Your task to perform on an android device: show emergency info Image 0: 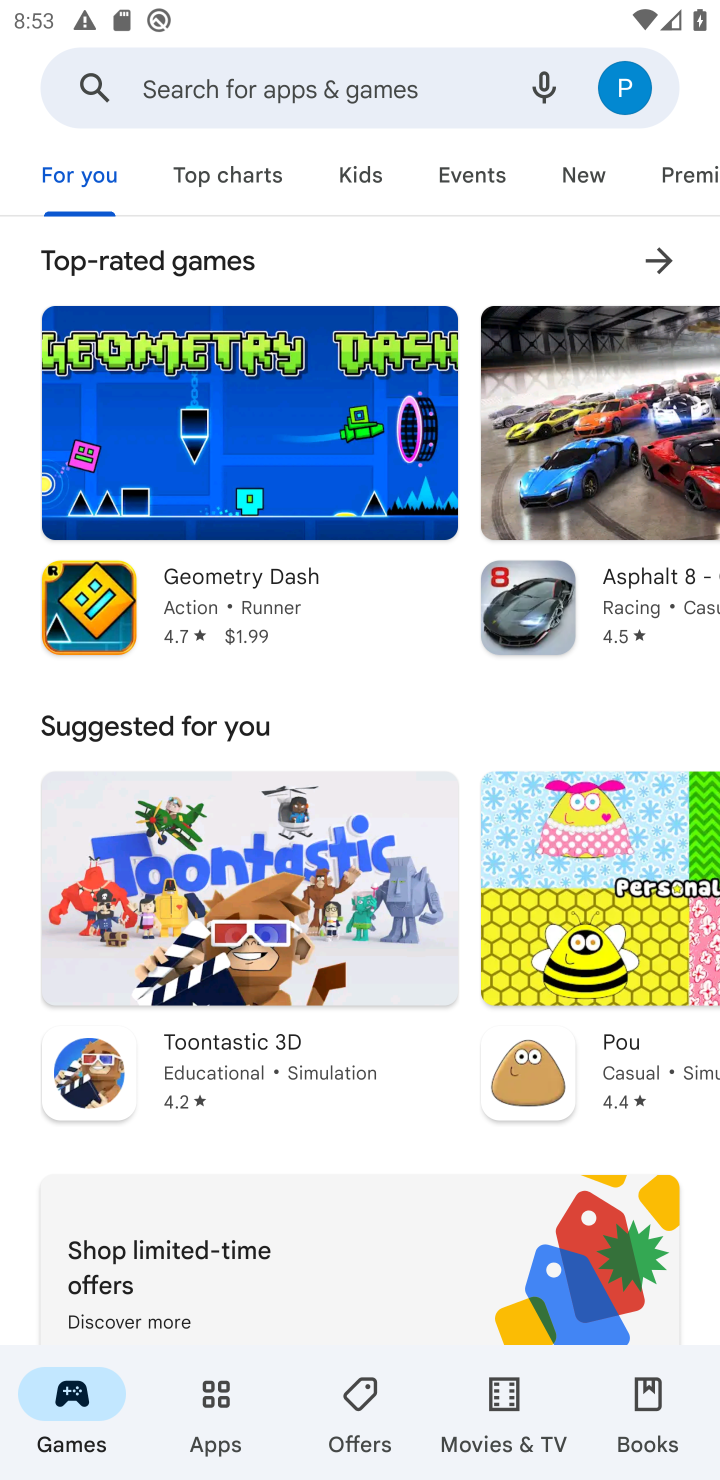
Step 0: press back button
Your task to perform on an android device: show emergency info Image 1: 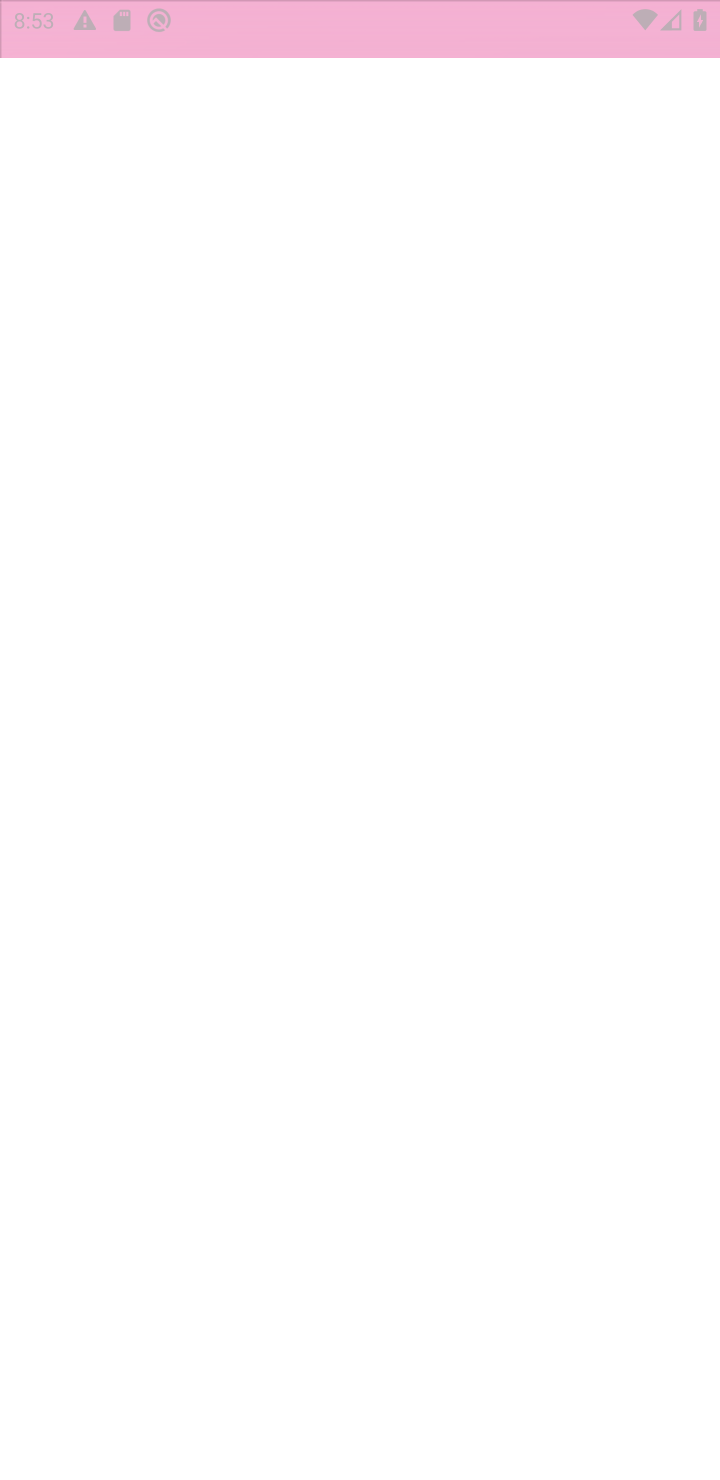
Step 1: press home button
Your task to perform on an android device: show emergency info Image 2: 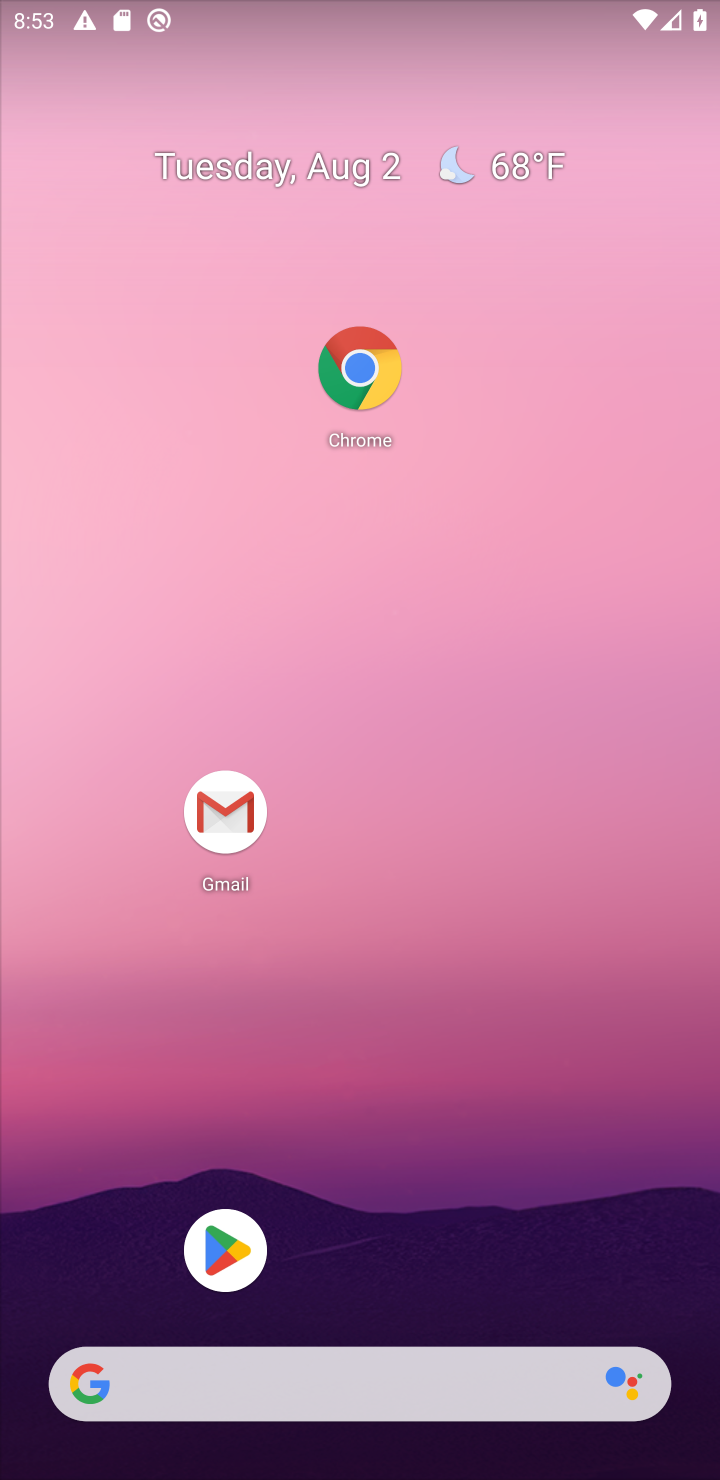
Step 2: drag from (409, 451) to (443, 217)
Your task to perform on an android device: show emergency info Image 3: 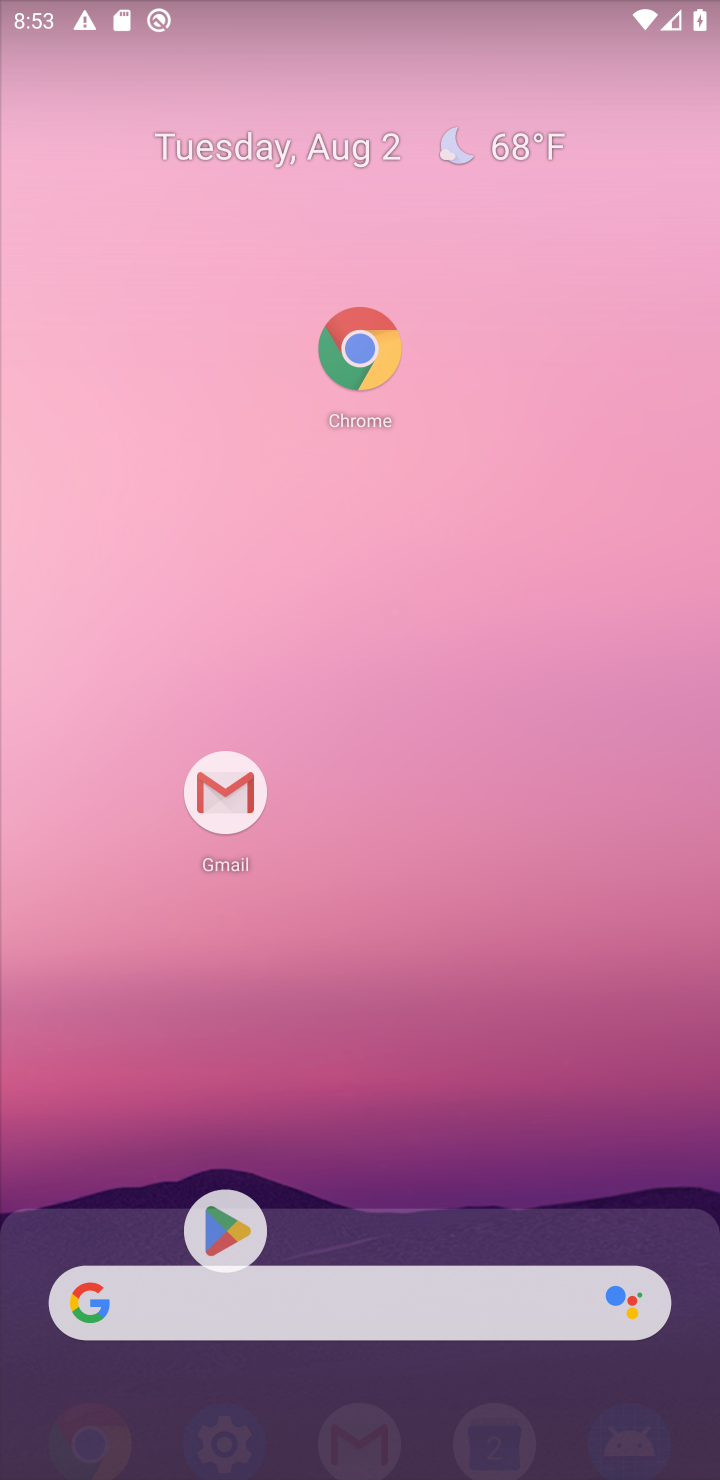
Step 3: click (264, 382)
Your task to perform on an android device: show emergency info Image 4: 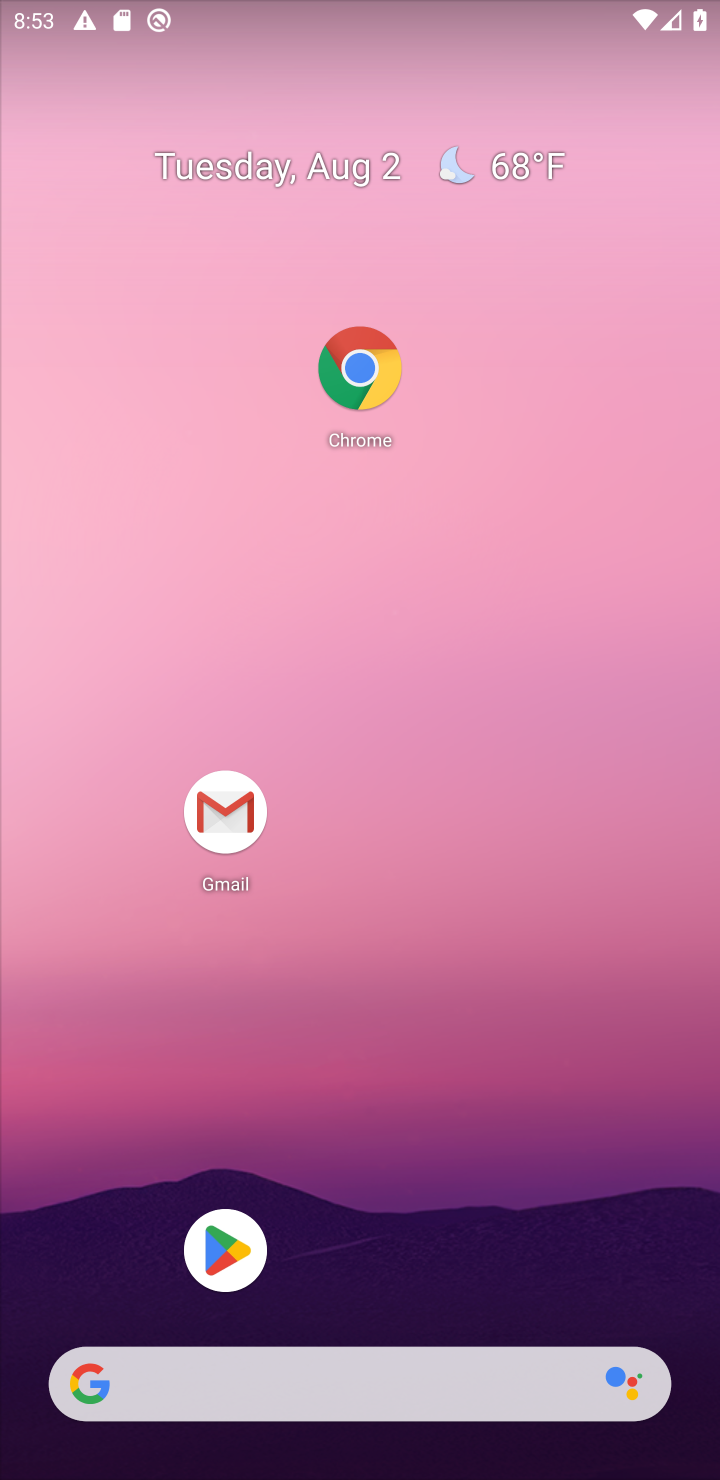
Step 4: drag from (291, 537) to (413, 347)
Your task to perform on an android device: show emergency info Image 5: 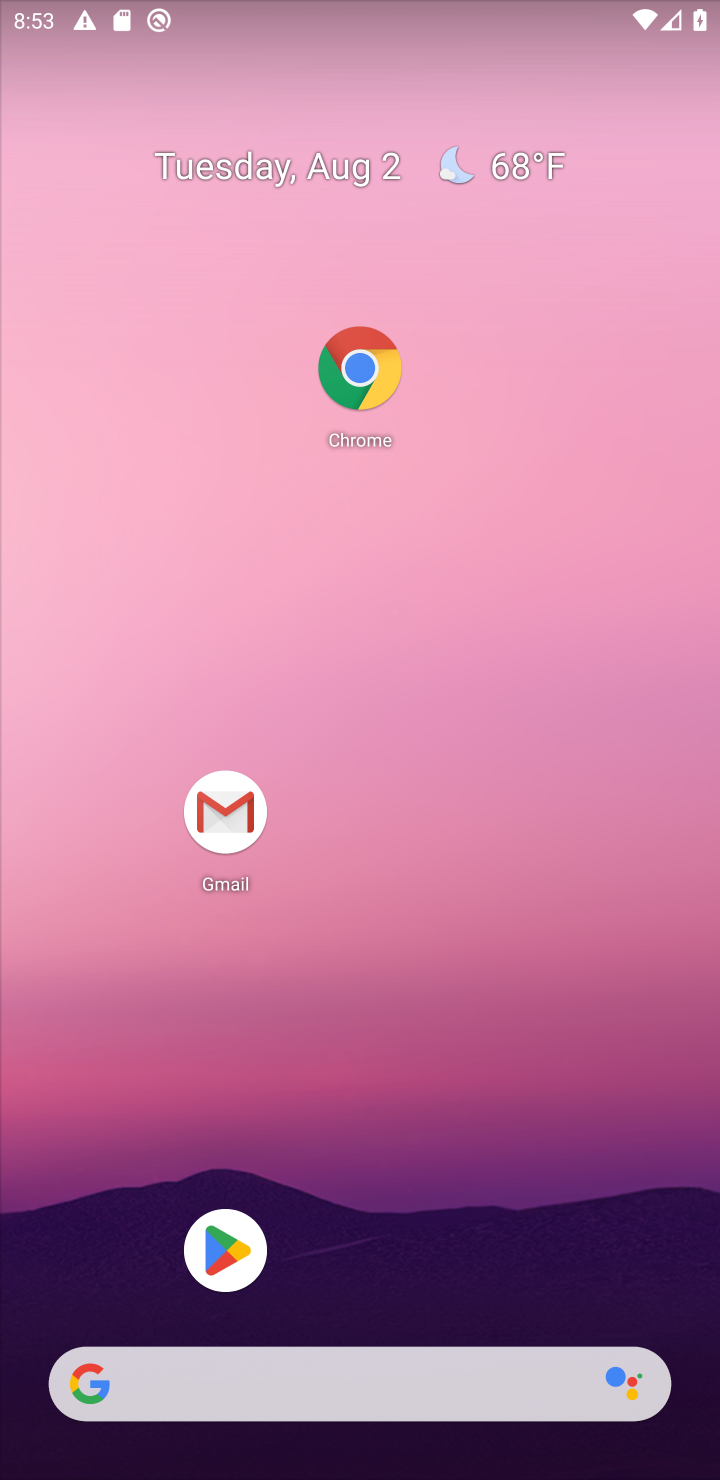
Step 5: click (358, 432)
Your task to perform on an android device: show emergency info Image 6: 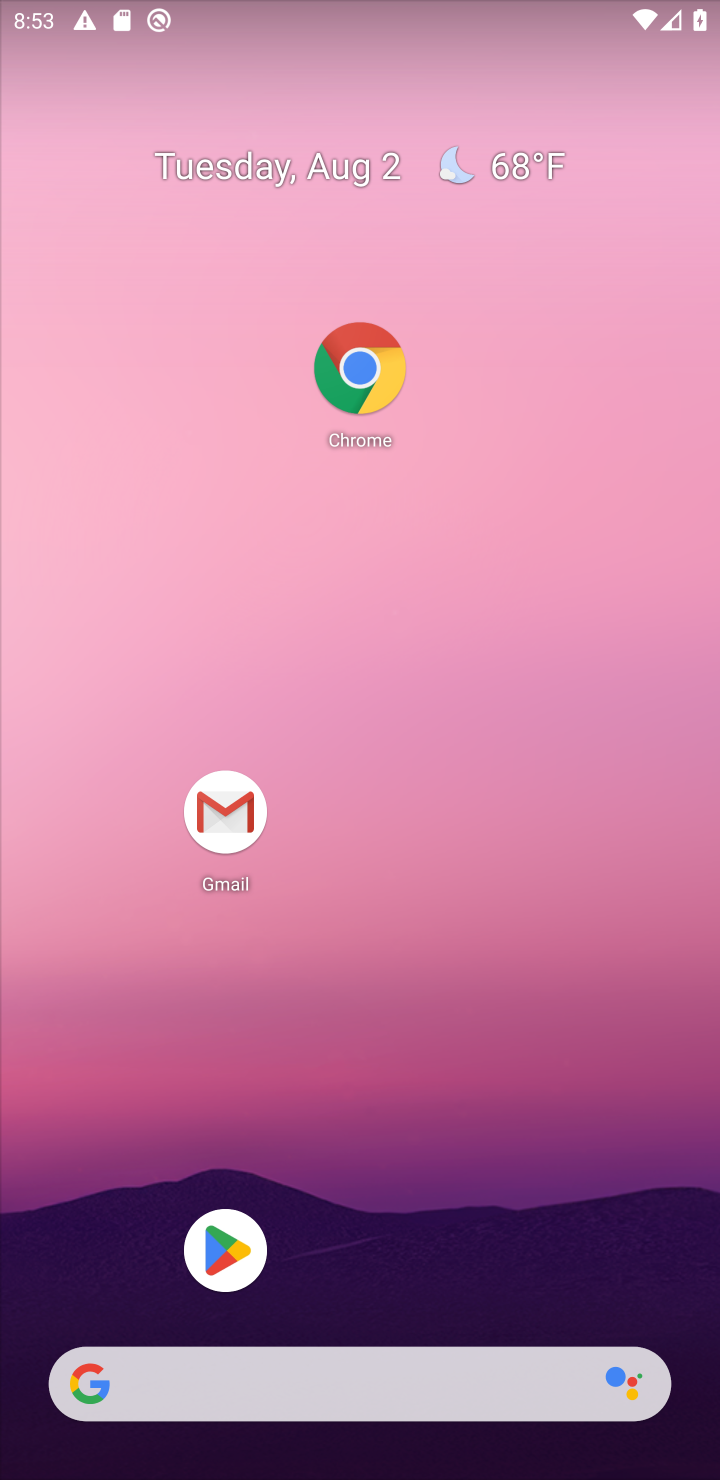
Step 6: drag from (314, 990) to (294, 433)
Your task to perform on an android device: show emergency info Image 7: 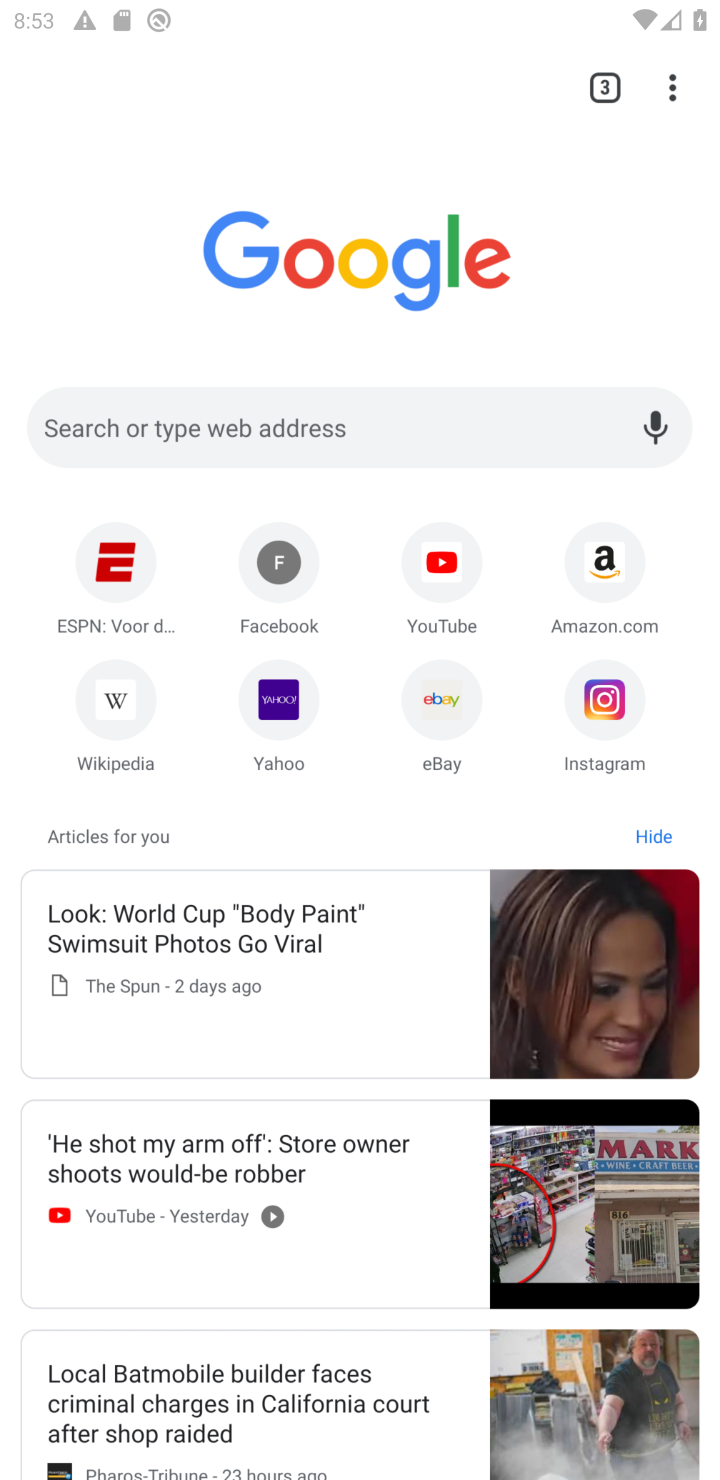
Step 7: click (266, 470)
Your task to perform on an android device: show emergency info Image 8: 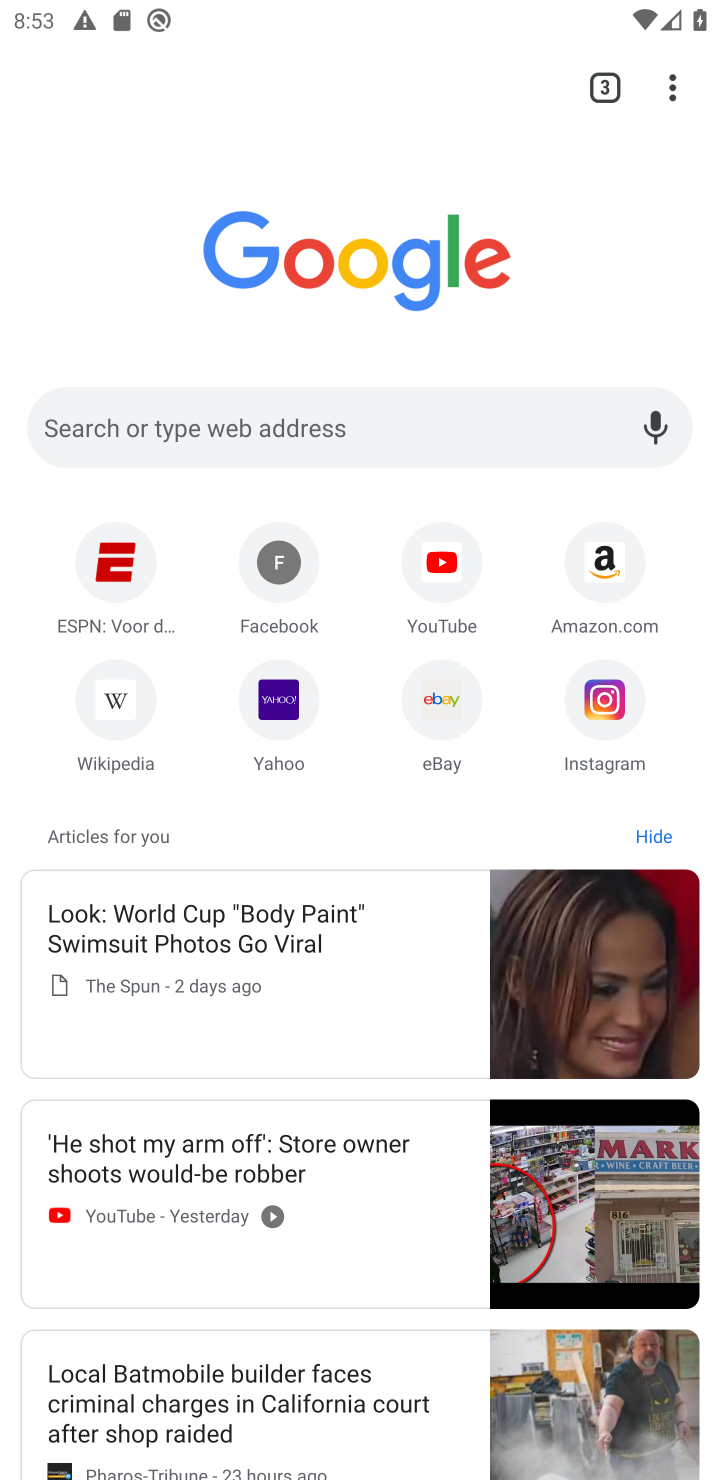
Step 8: press back button
Your task to perform on an android device: show emergency info Image 9: 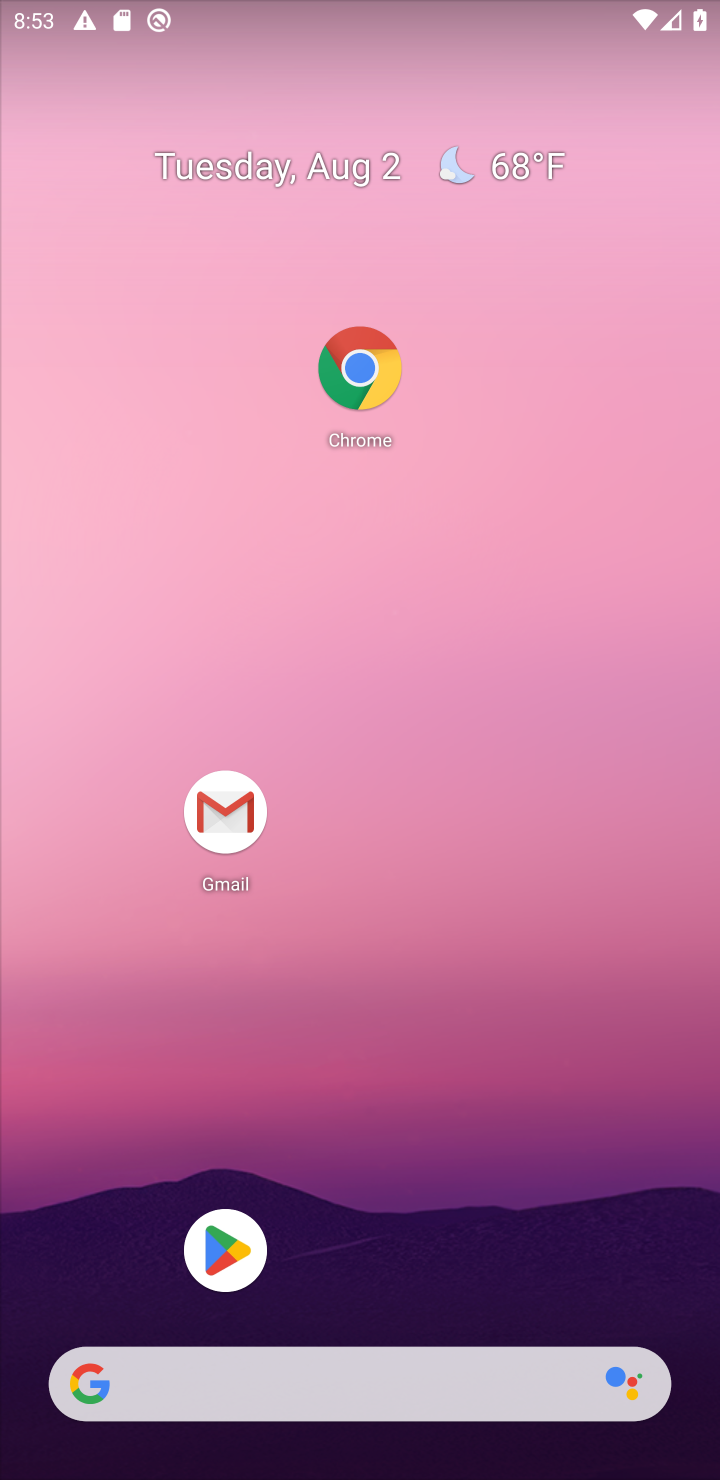
Step 9: drag from (233, 372) to (435, 291)
Your task to perform on an android device: show emergency info Image 10: 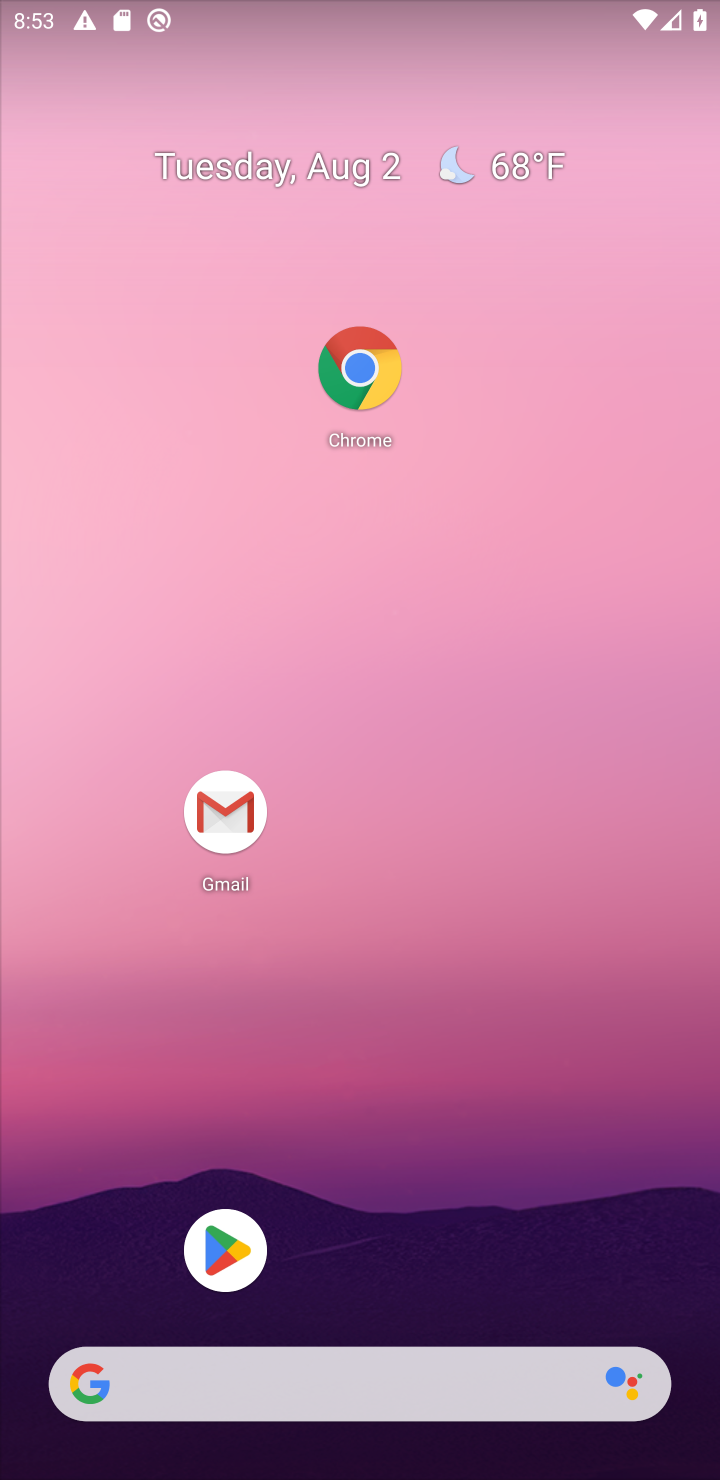
Step 10: click (366, 319)
Your task to perform on an android device: show emergency info Image 11: 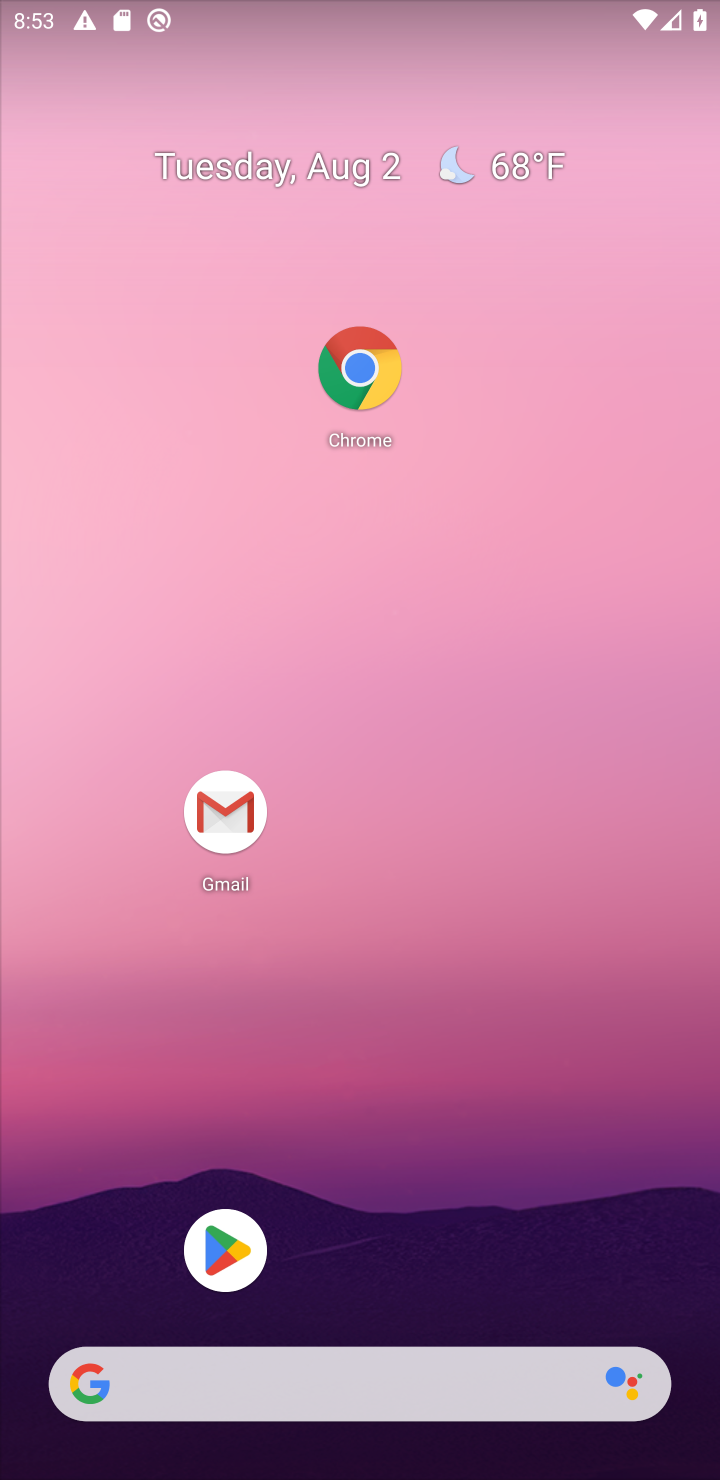
Step 11: click (336, 454)
Your task to perform on an android device: show emergency info Image 12: 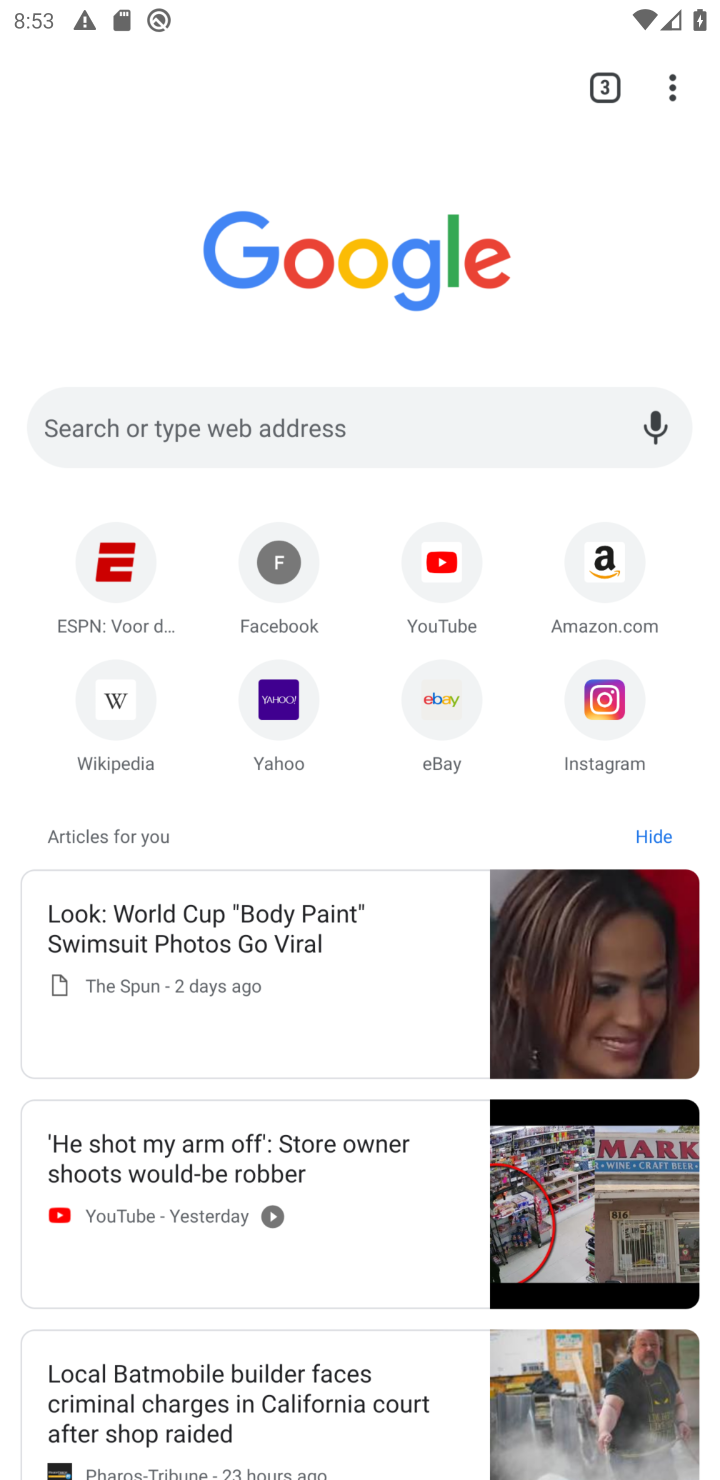
Step 12: click (307, 481)
Your task to perform on an android device: show emergency info Image 13: 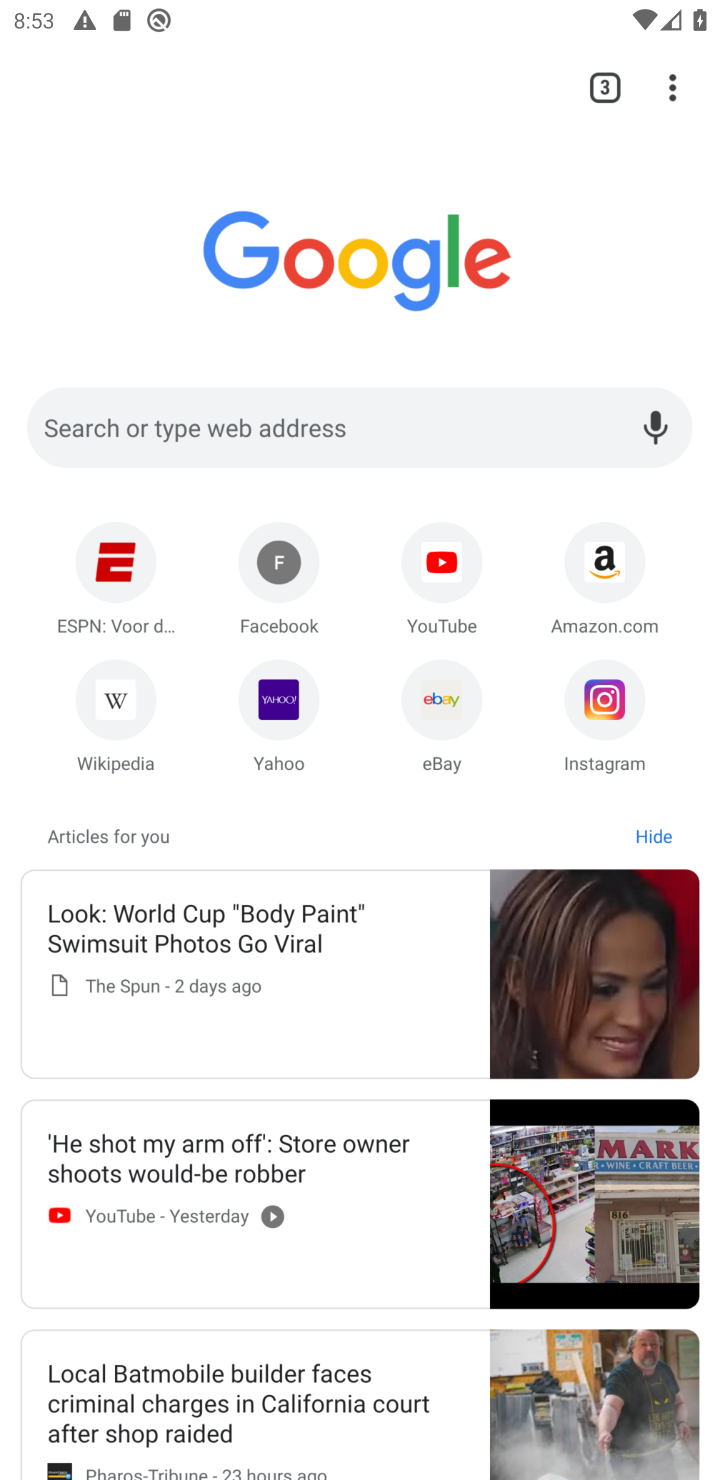
Step 13: drag from (340, 673) to (348, 433)
Your task to perform on an android device: show emergency info Image 14: 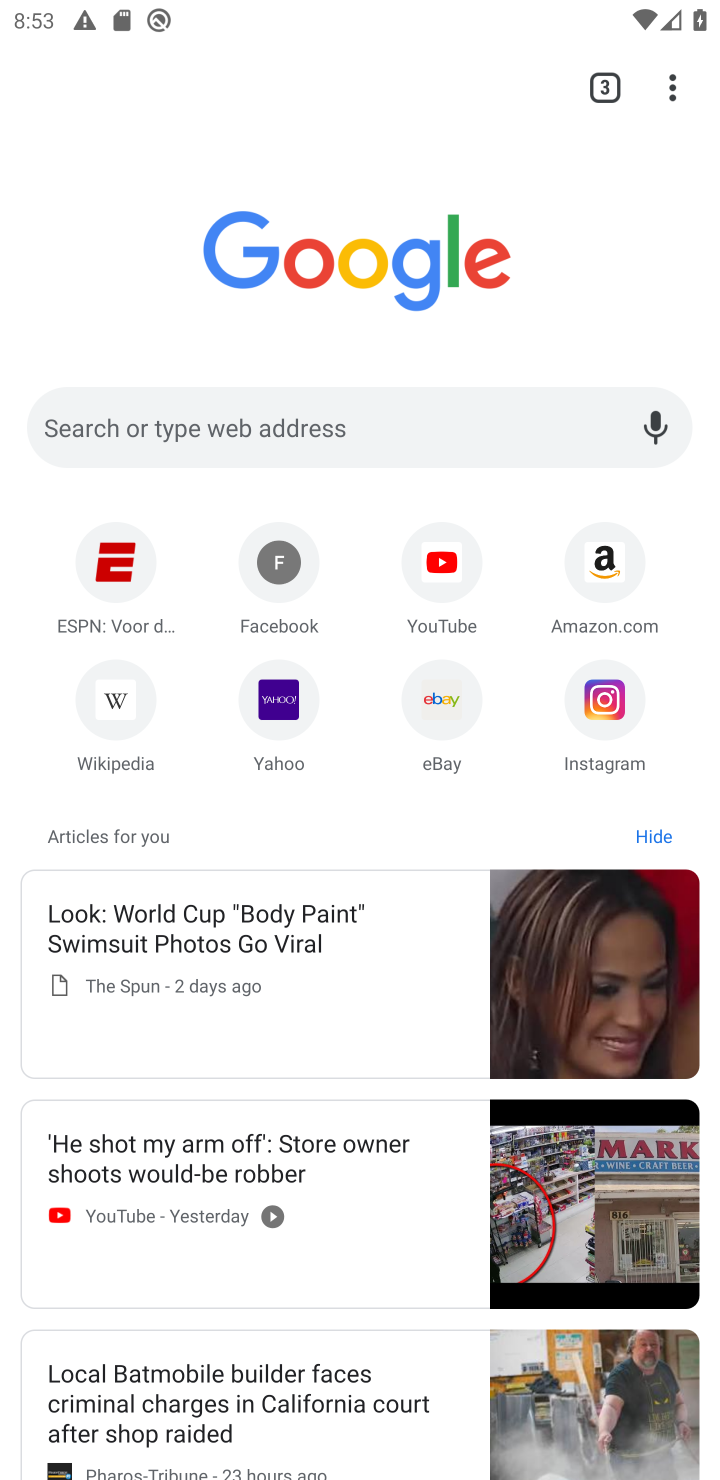
Step 14: press back button
Your task to perform on an android device: show emergency info Image 15: 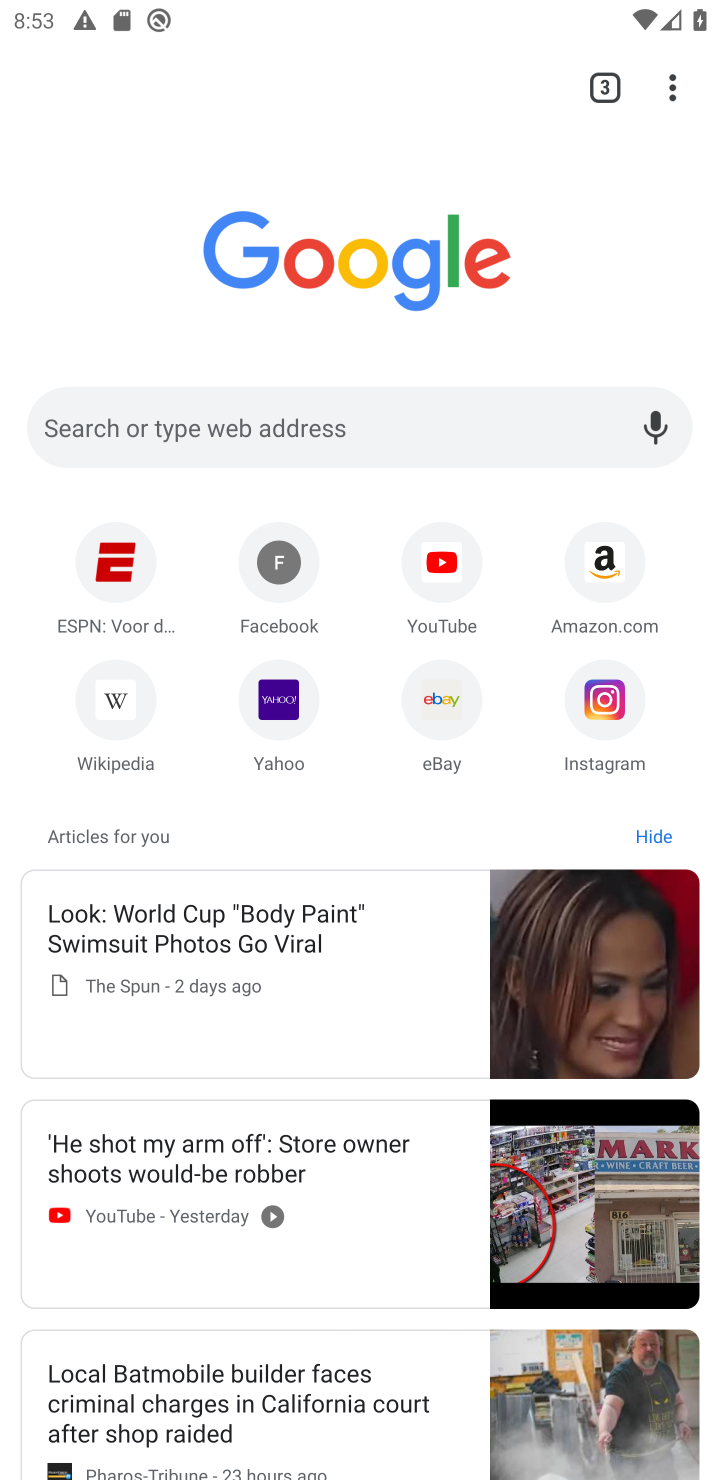
Step 15: press home button
Your task to perform on an android device: show emergency info Image 16: 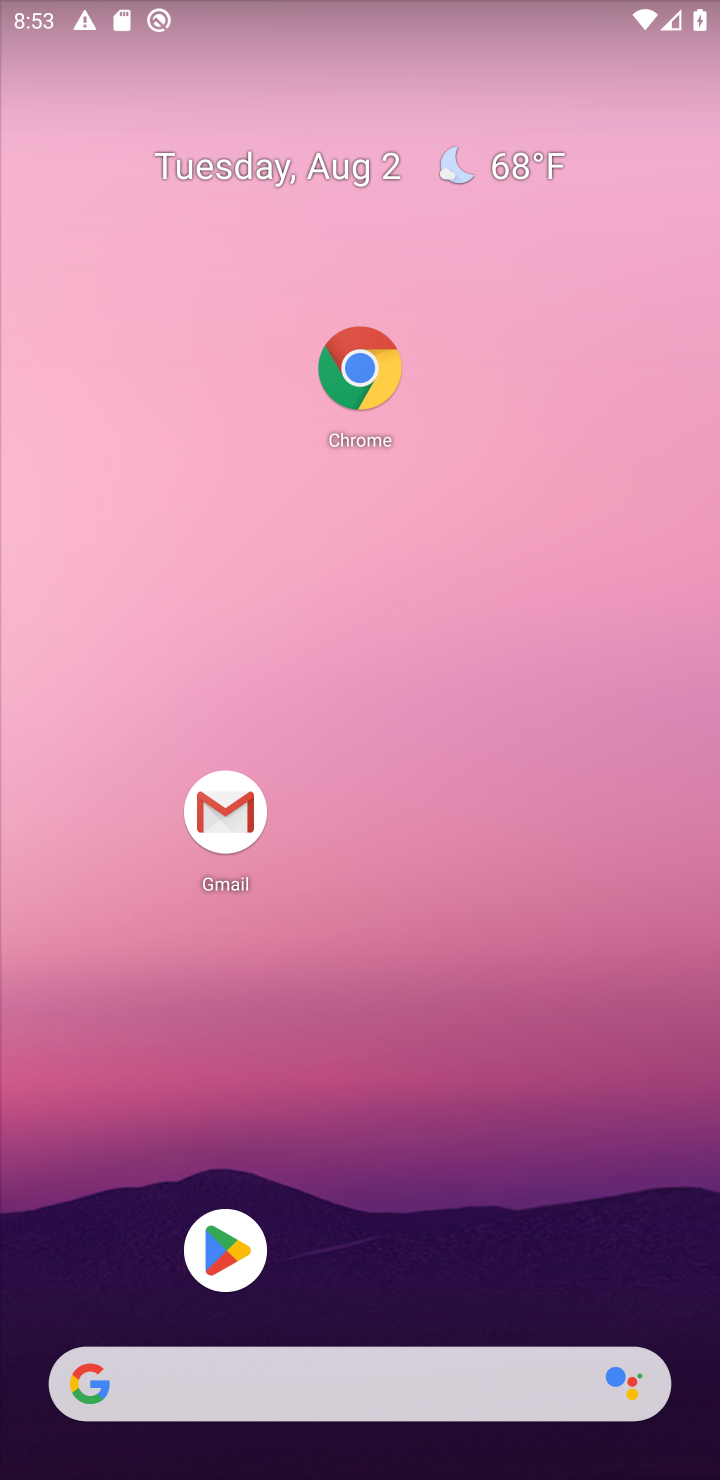
Step 16: press back button
Your task to perform on an android device: show emergency info Image 17: 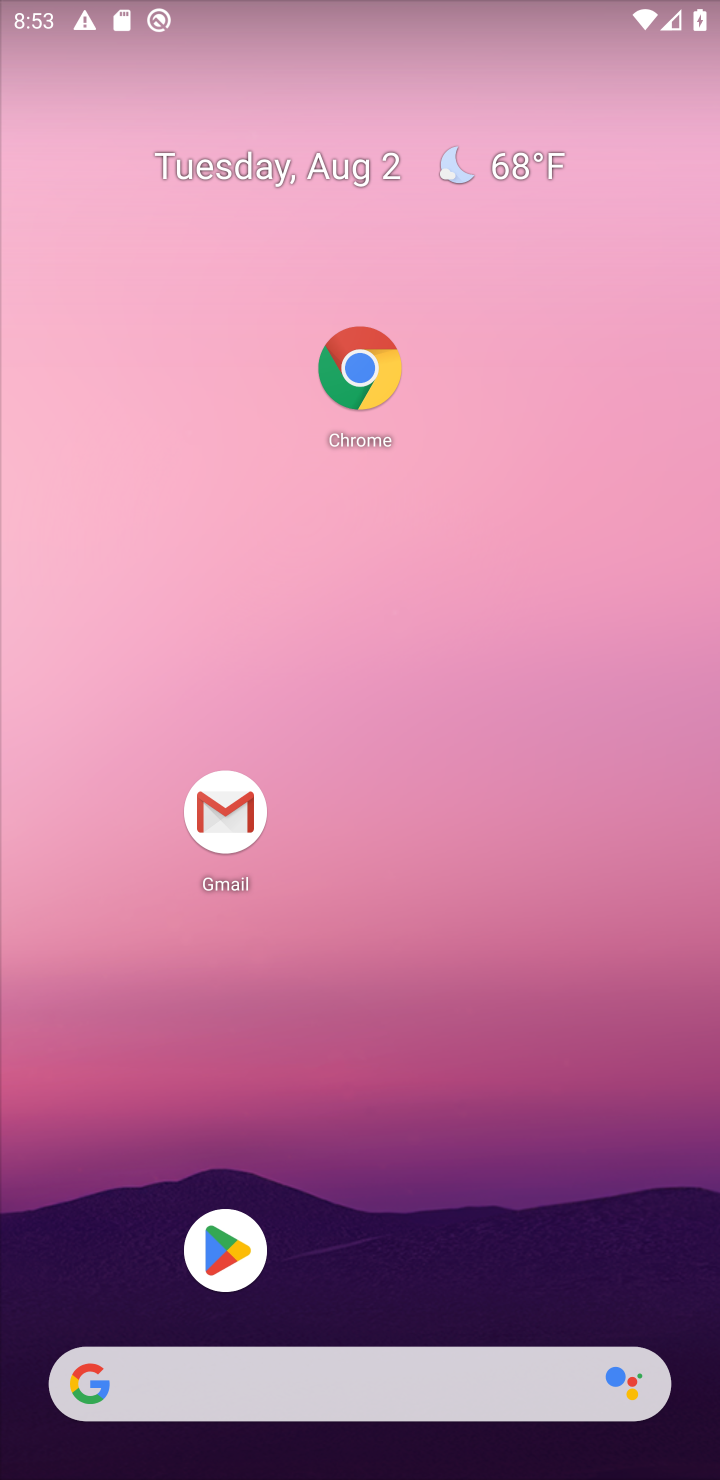
Step 17: drag from (386, 476) to (411, 137)
Your task to perform on an android device: show emergency info Image 18: 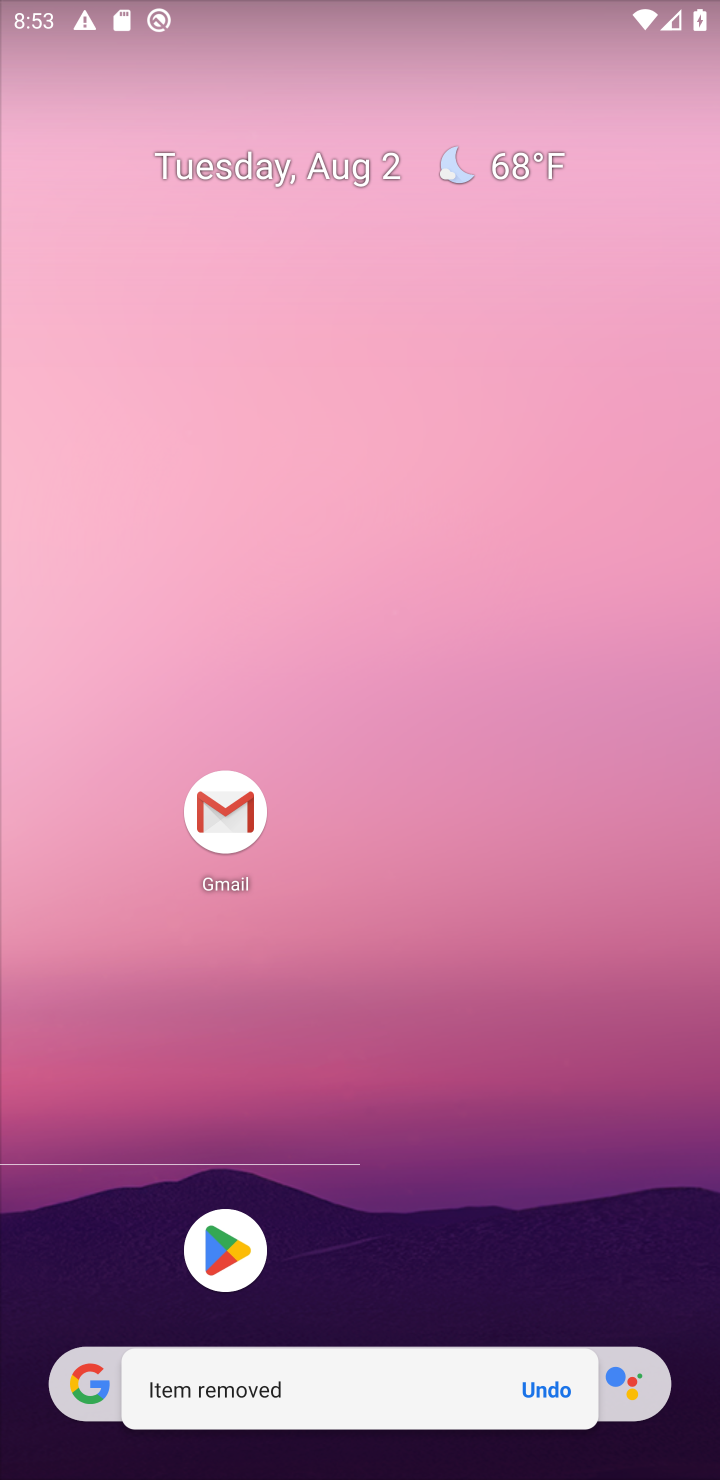
Step 18: drag from (483, 482) to (473, 193)
Your task to perform on an android device: show emergency info Image 19: 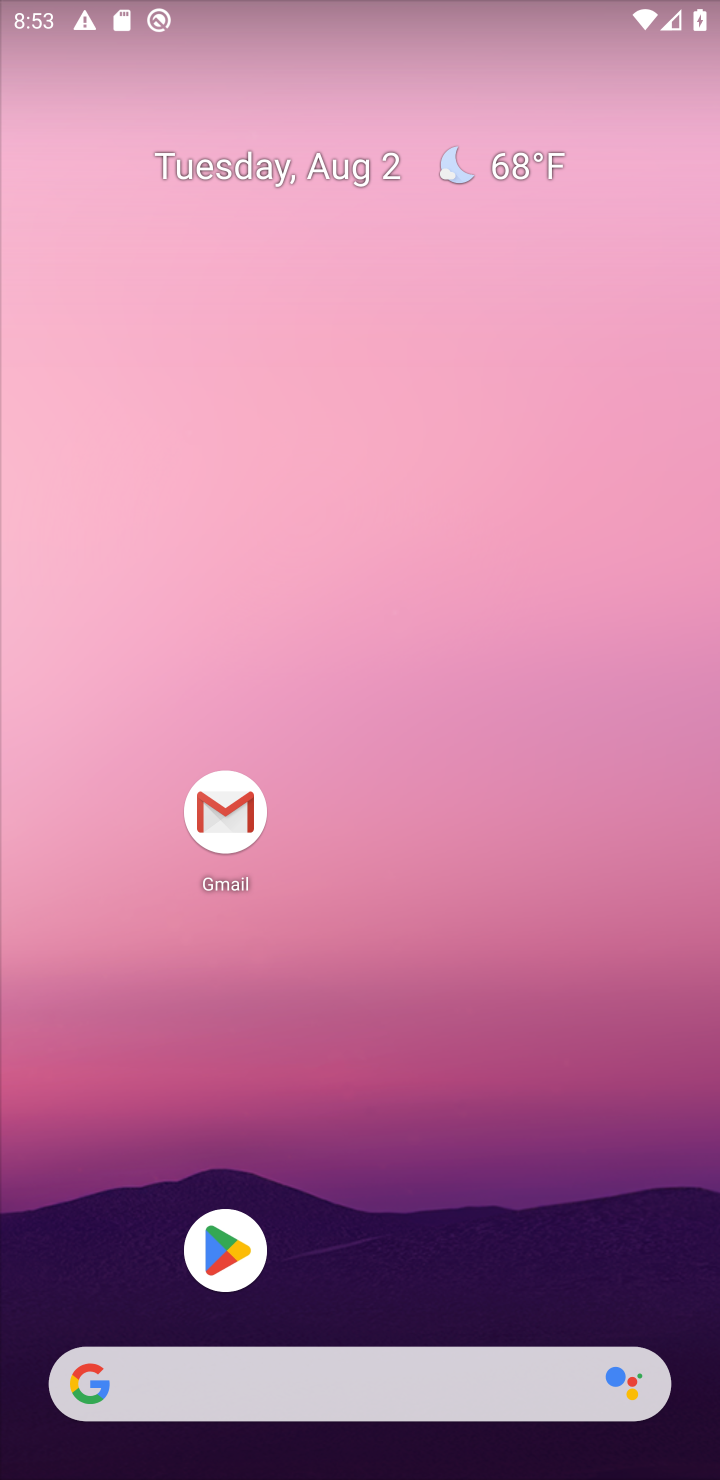
Step 19: drag from (342, 1009) to (250, 290)
Your task to perform on an android device: show emergency info Image 20: 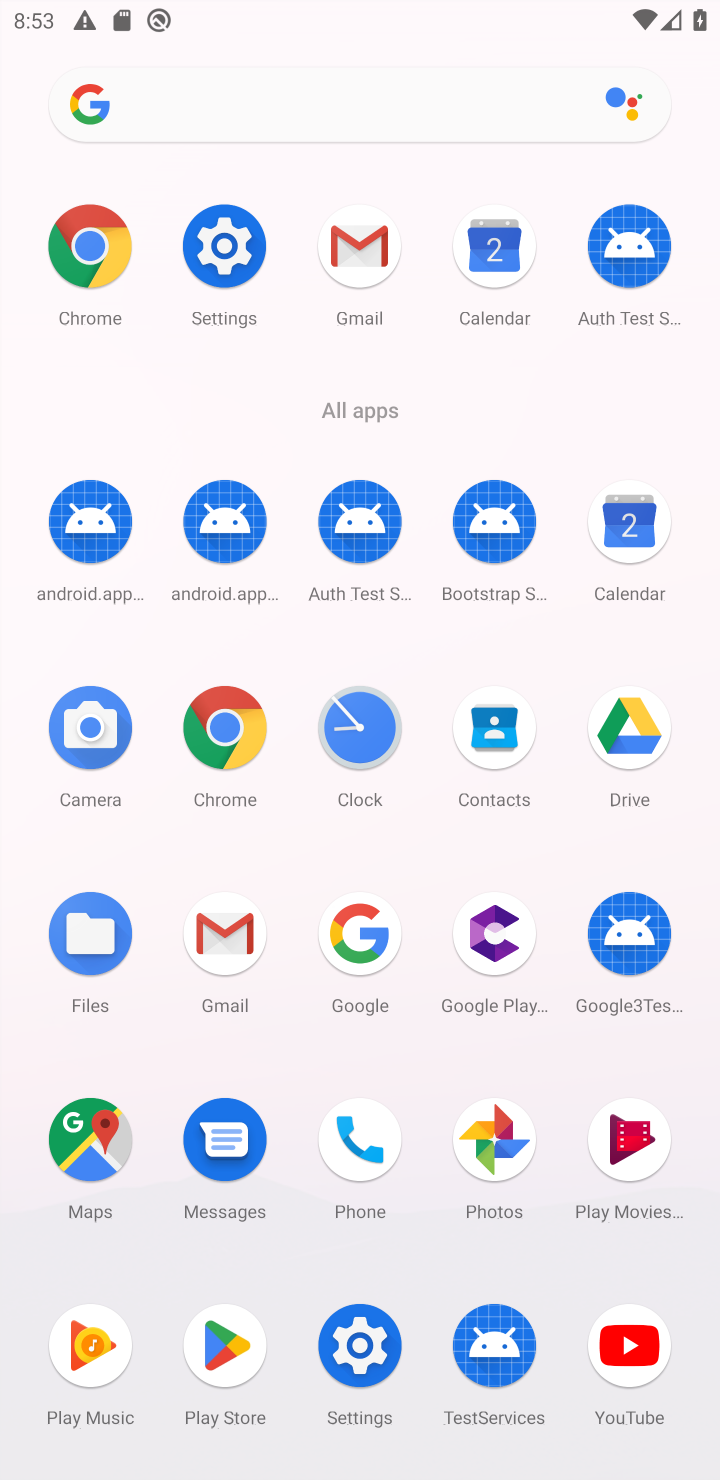
Step 20: click (231, 253)
Your task to perform on an android device: show emergency info Image 21: 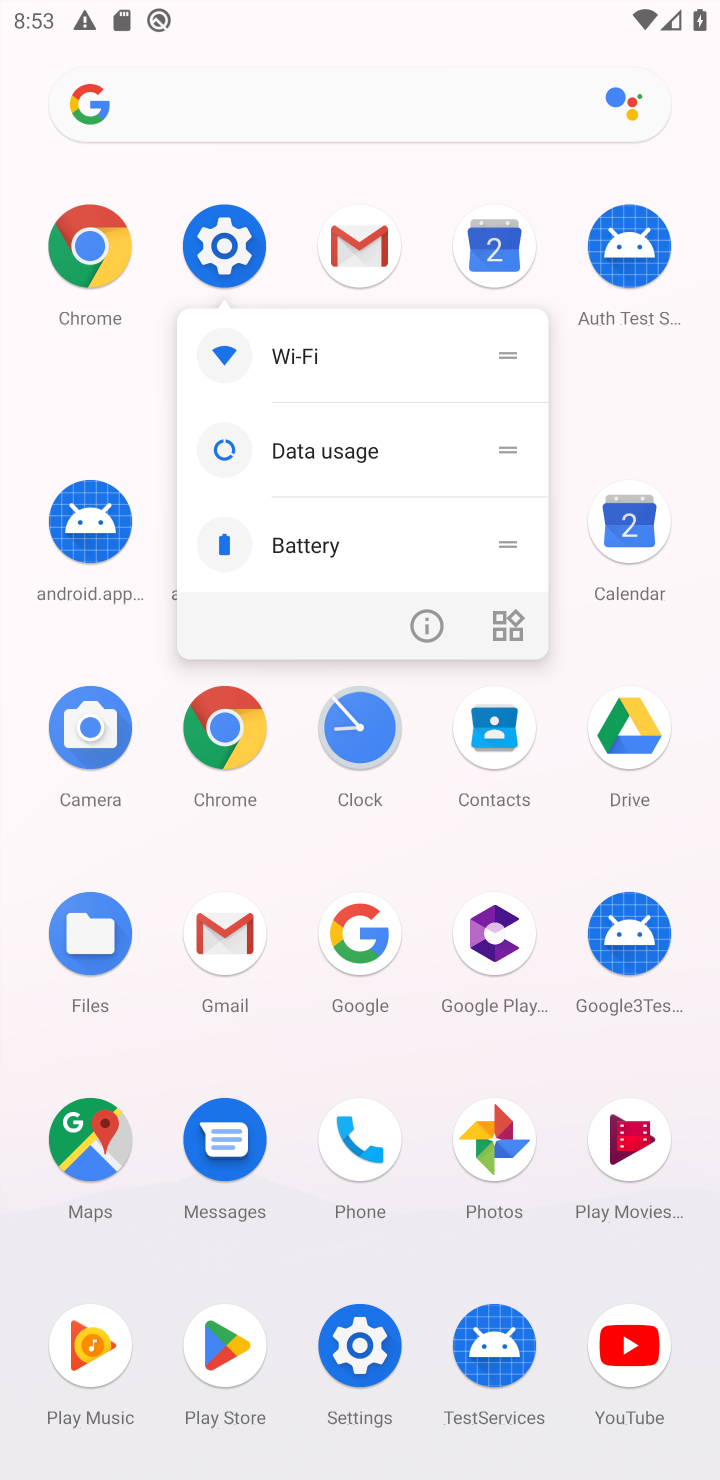
Step 21: click (229, 257)
Your task to perform on an android device: show emergency info Image 22: 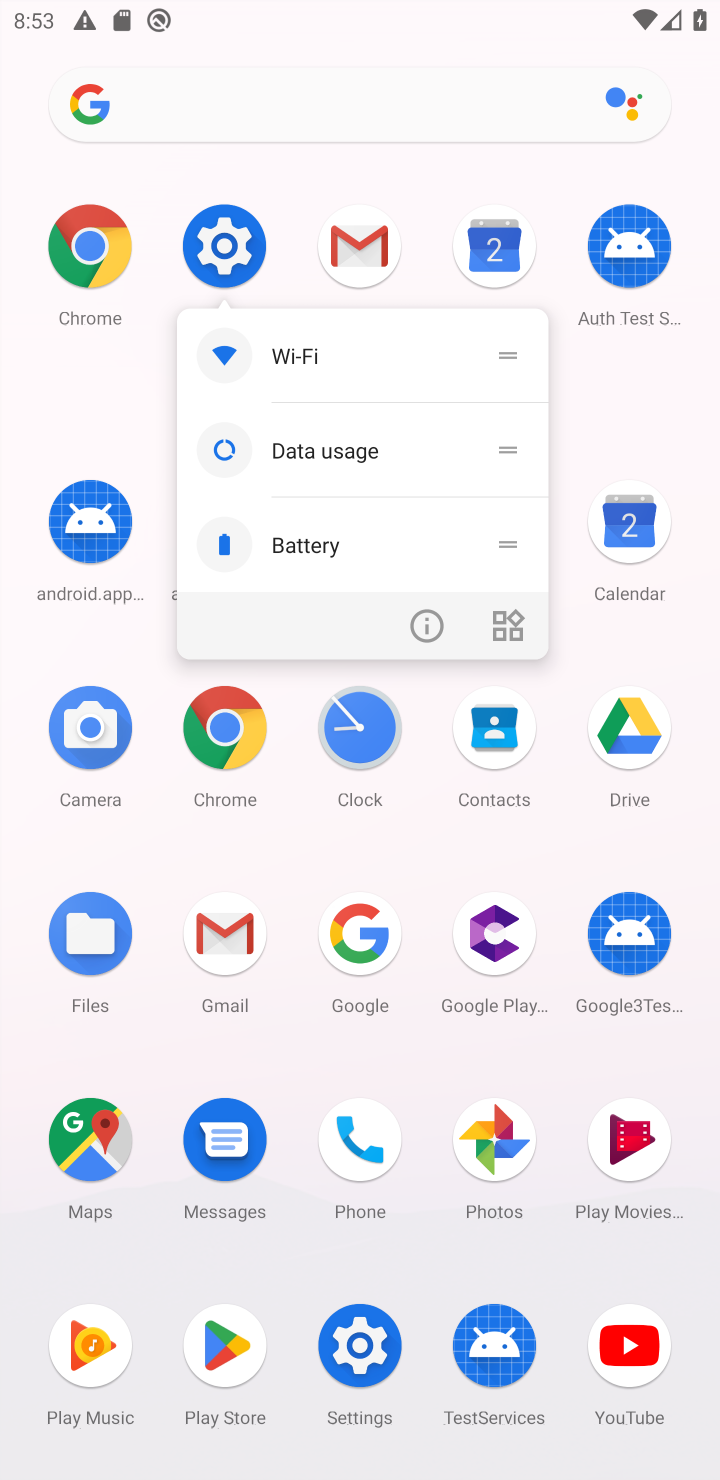
Step 22: click (229, 257)
Your task to perform on an android device: show emergency info Image 23: 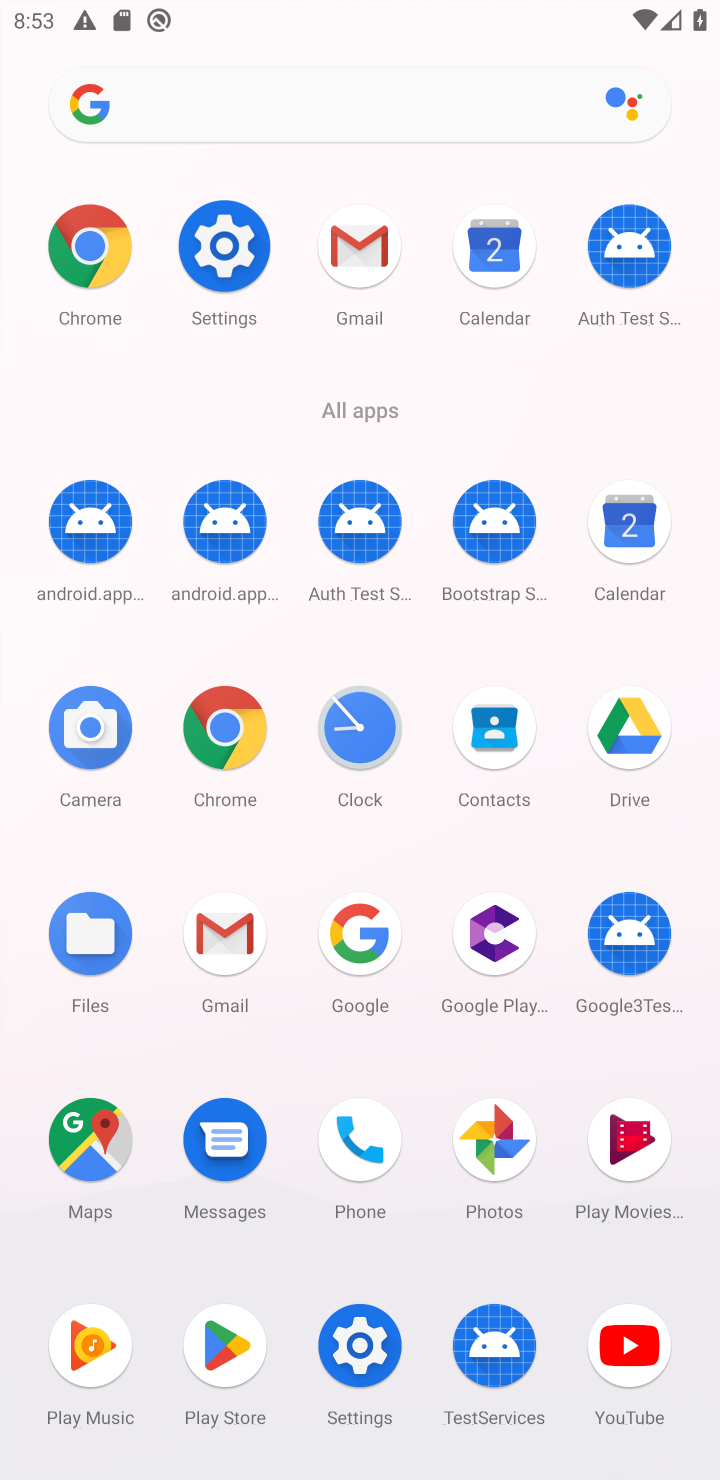
Step 23: click (229, 257)
Your task to perform on an android device: show emergency info Image 24: 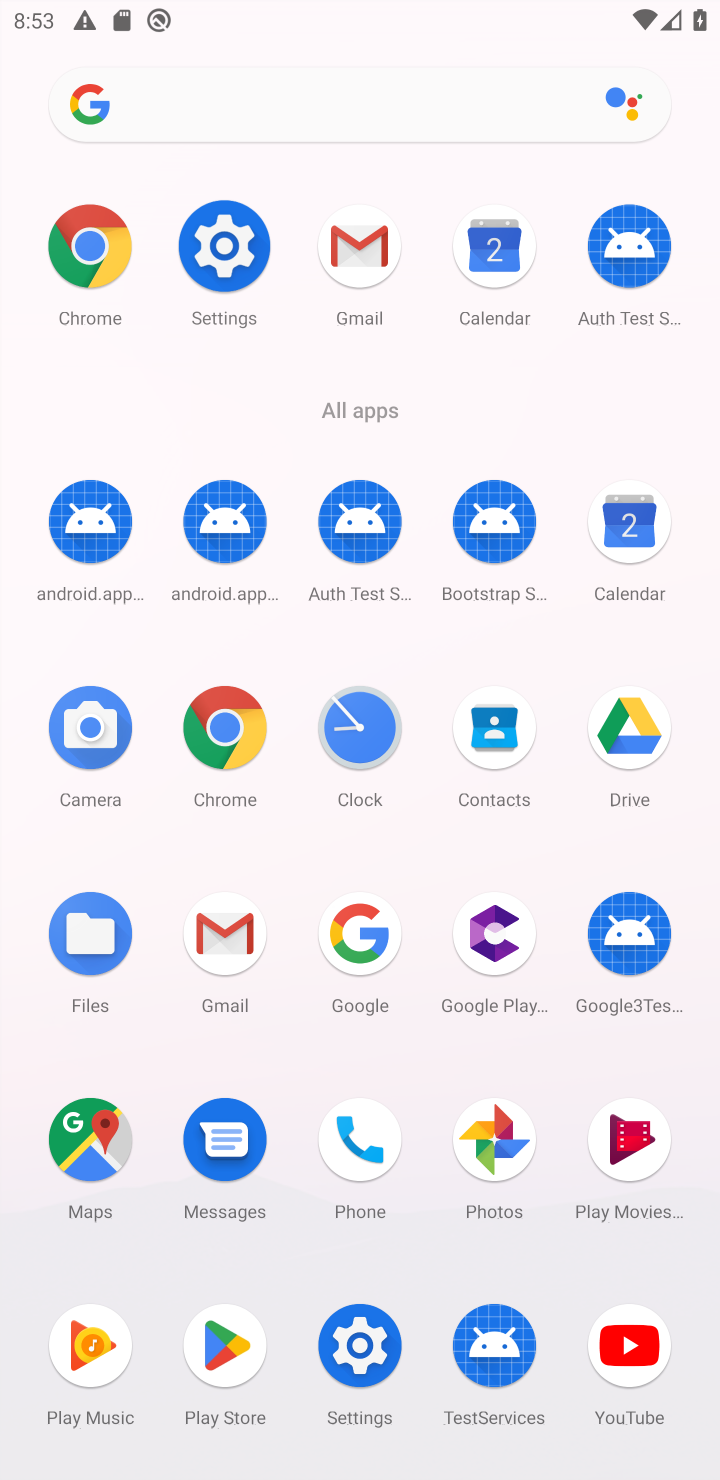
Step 24: click (225, 264)
Your task to perform on an android device: show emergency info Image 25: 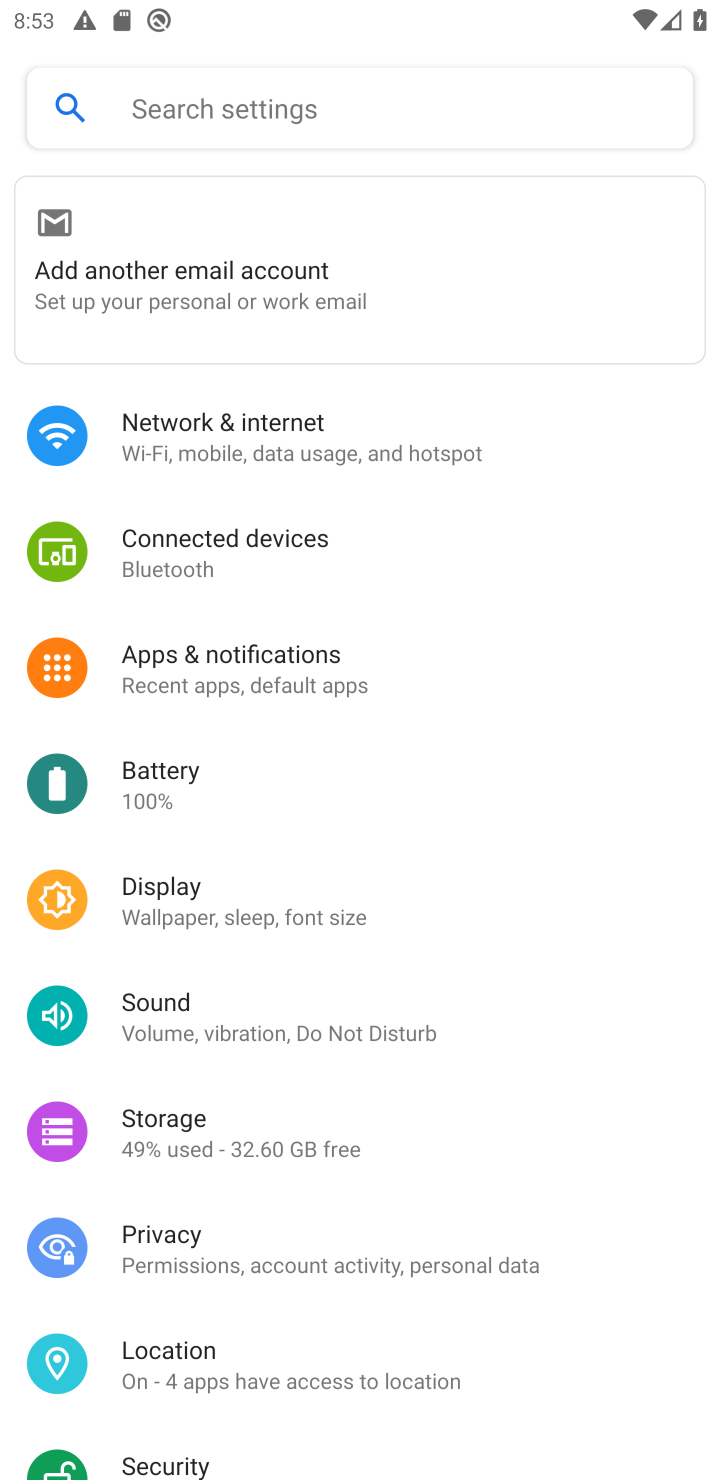
Step 25: click (225, 264)
Your task to perform on an android device: show emergency info Image 26: 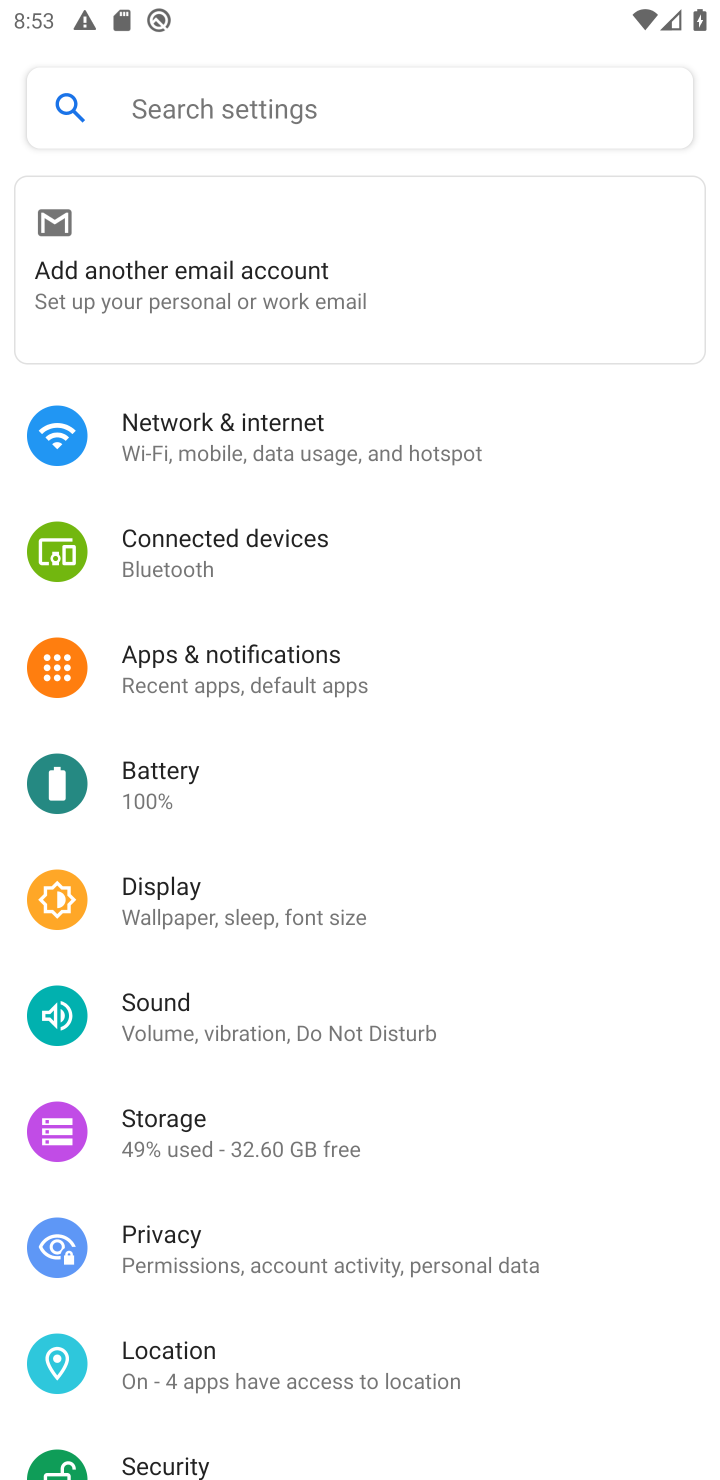
Step 26: drag from (302, 598) to (295, 531)
Your task to perform on an android device: show emergency info Image 27: 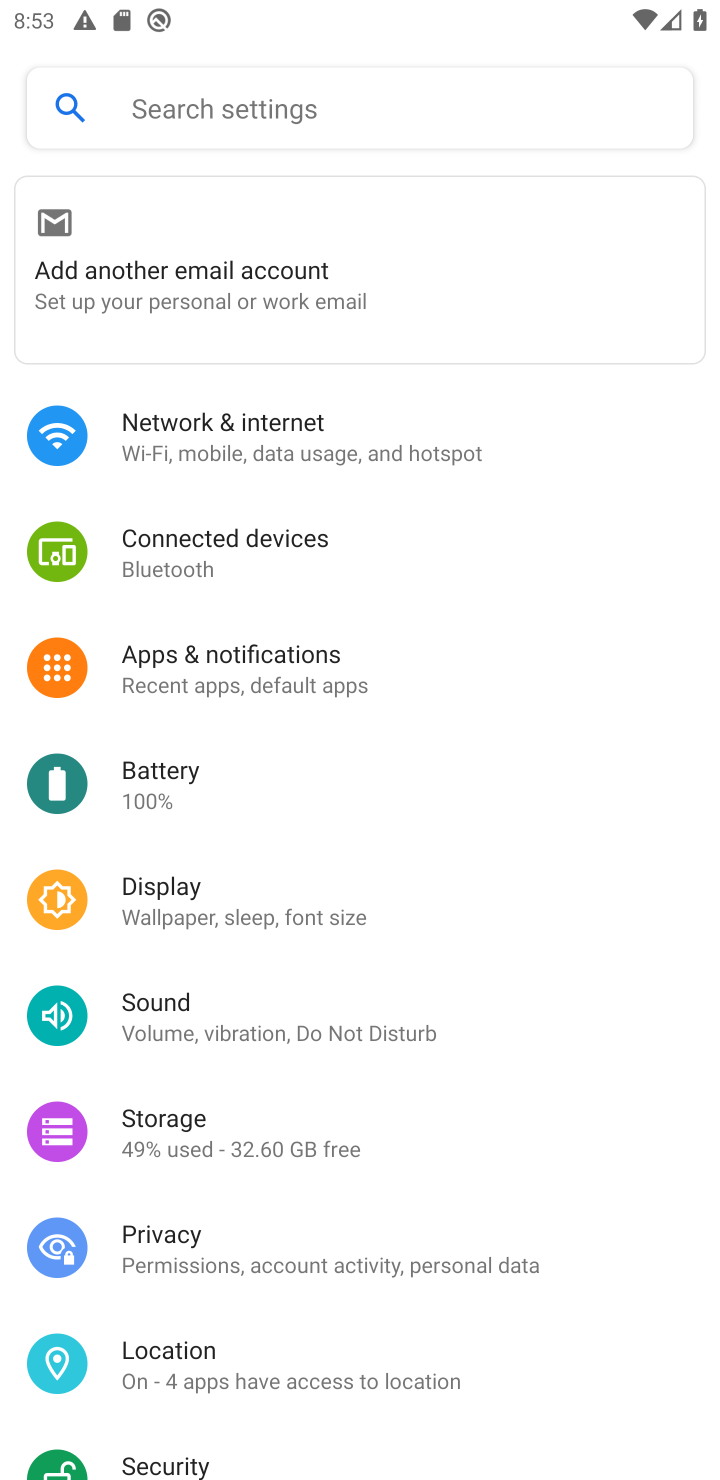
Step 27: drag from (225, 948) to (225, 485)
Your task to perform on an android device: show emergency info Image 28: 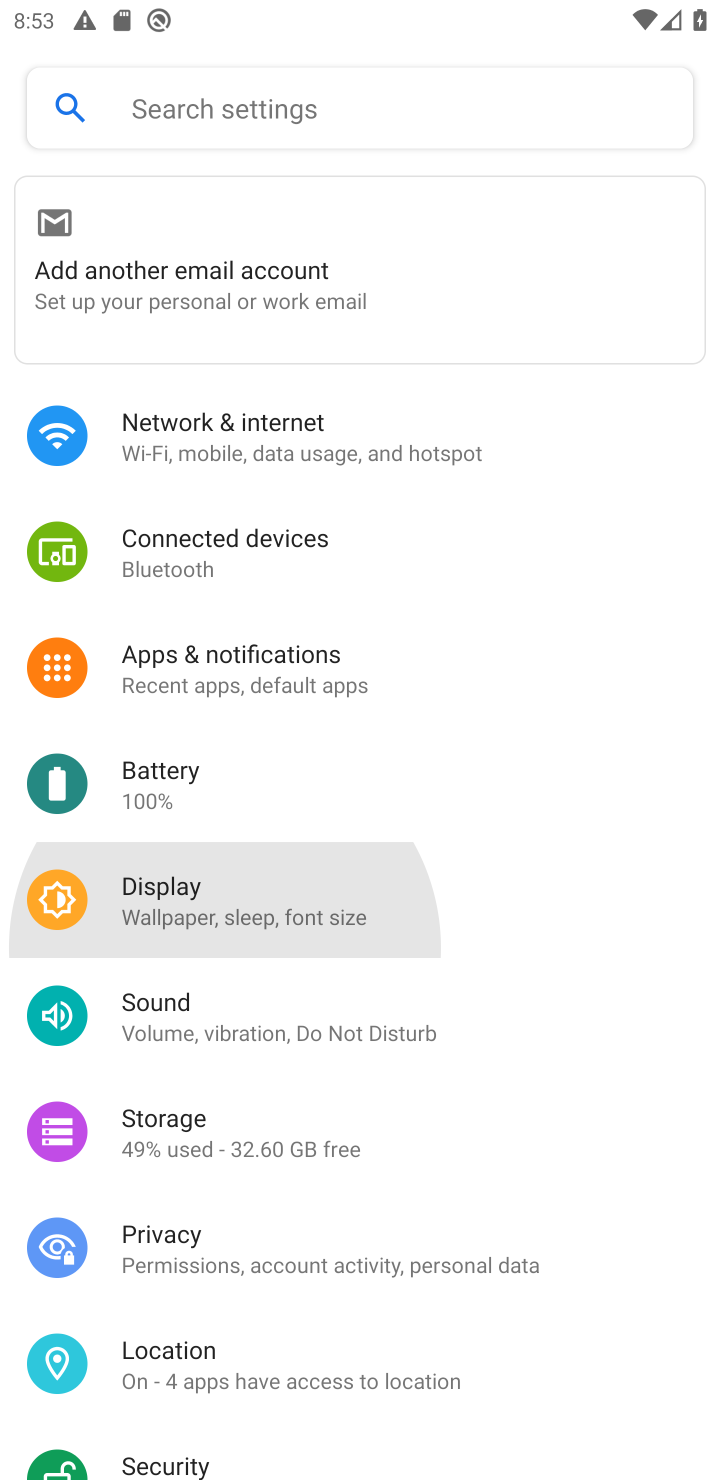
Step 28: drag from (315, 668) to (370, 354)
Your task to perform on an android device: show emergency info Image 29: 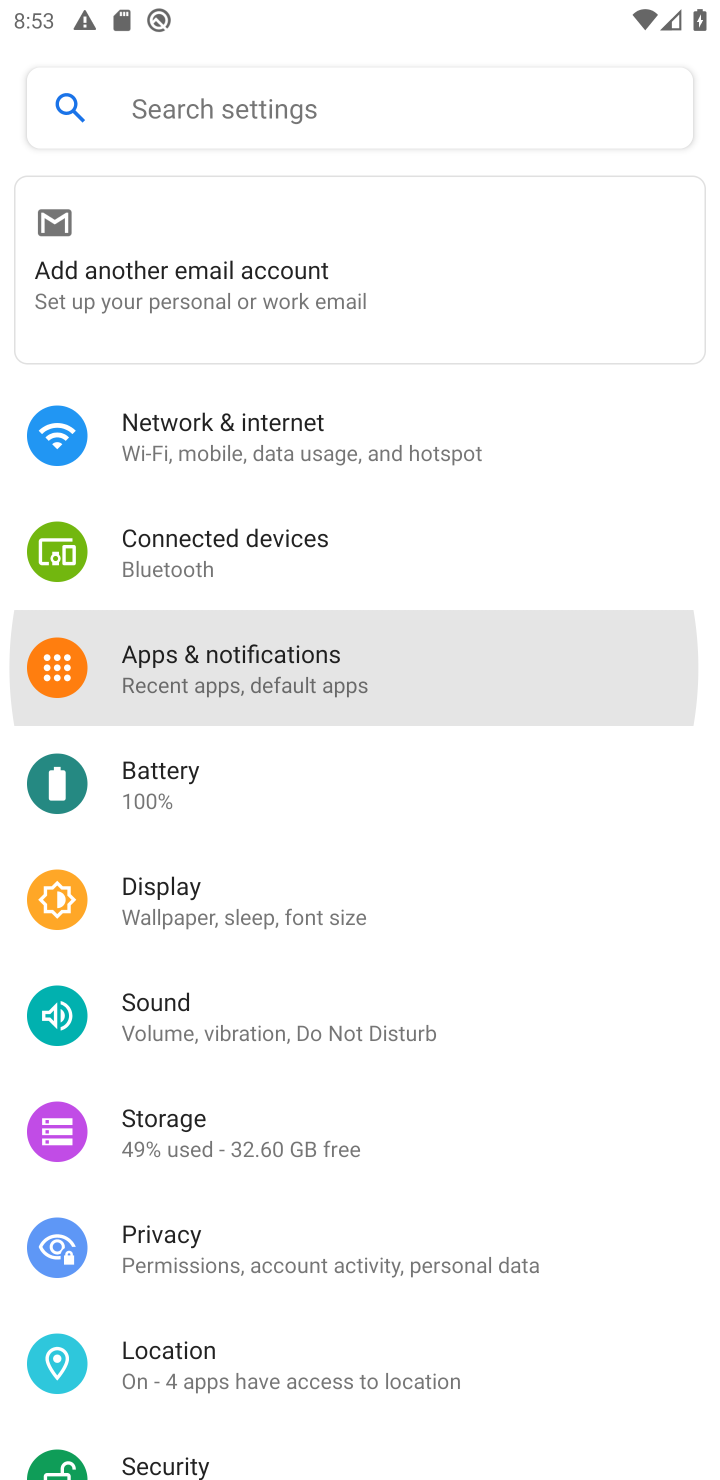
Step 29: click (173, 559)
Your task to perform on an android device: show emergency info Image 30: 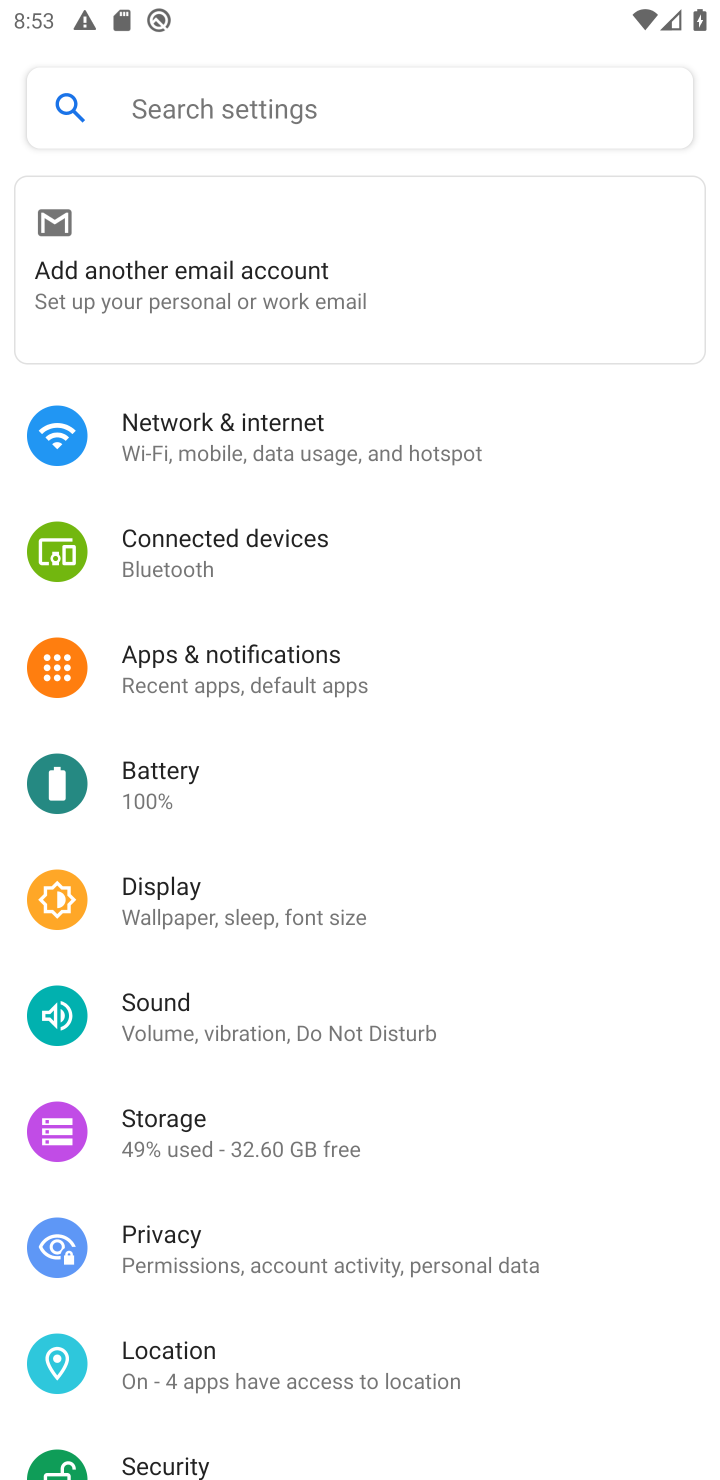
Step 30: drag from (141, 1096) to (241, 577)
Your task to perform on an android device: show emergency info Image 31: 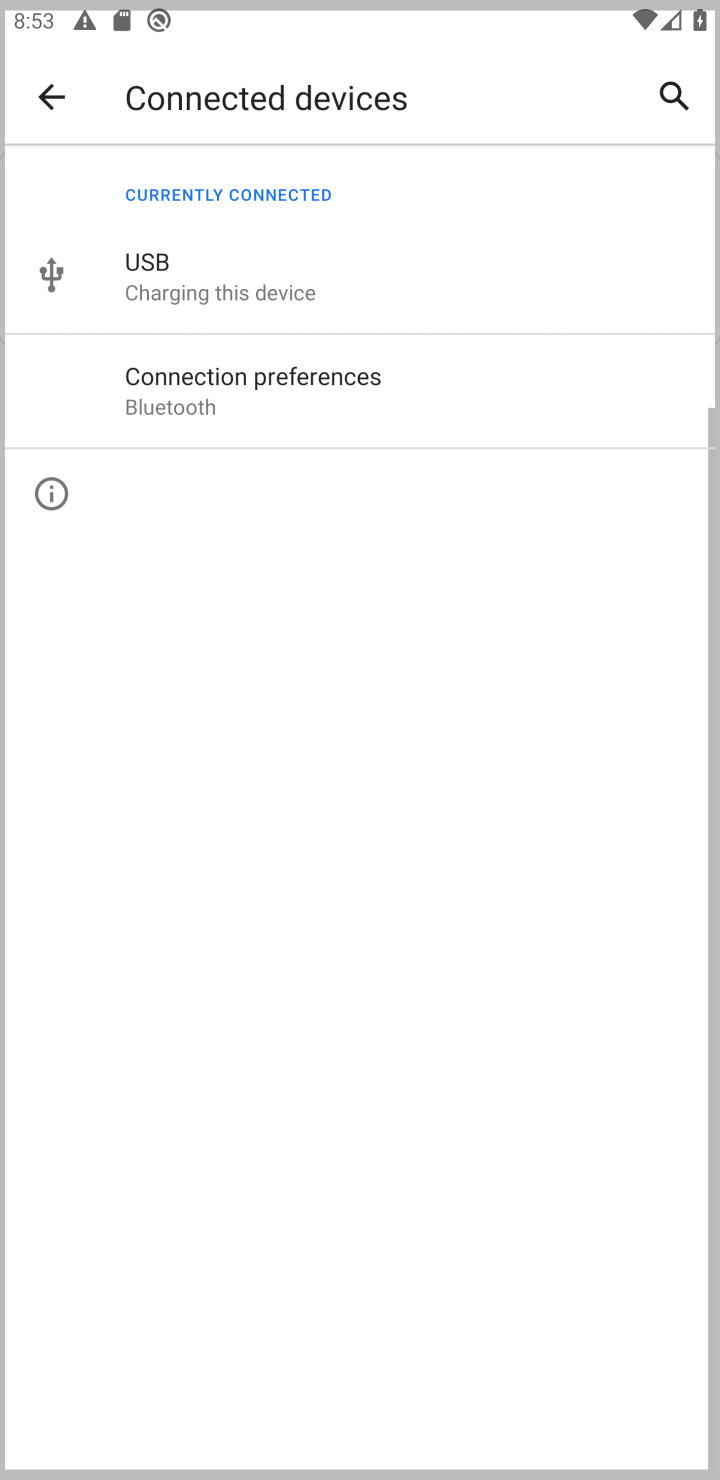
Step 31: drag from (267, 1172) to (306, 707)
Your task to perform on an android device: show emergency info Image 32: 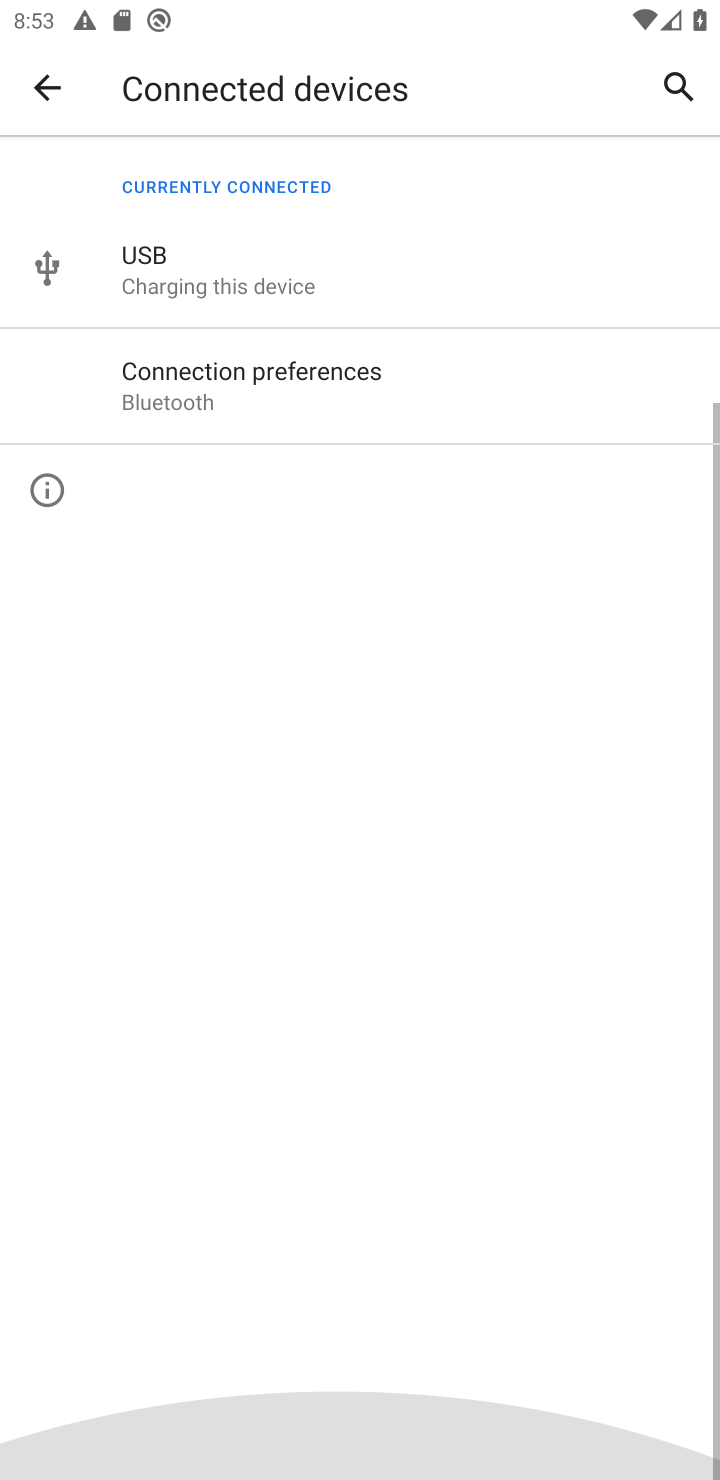
Step 32: click (284, 744)
Your task to perform on an android device: show emergency info Image 33: 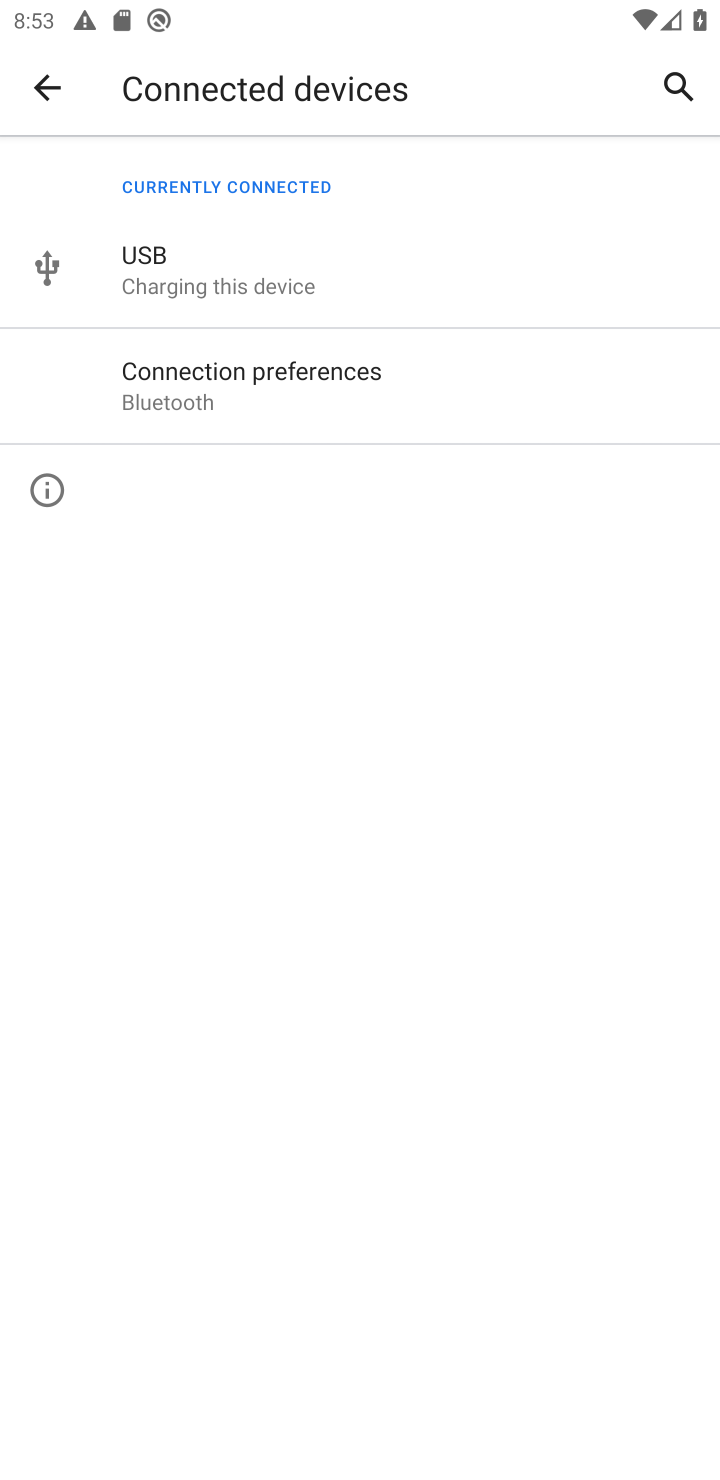
Step 33: click (54, 84)
Your task to perform on an android device: show emergency info Image 34: 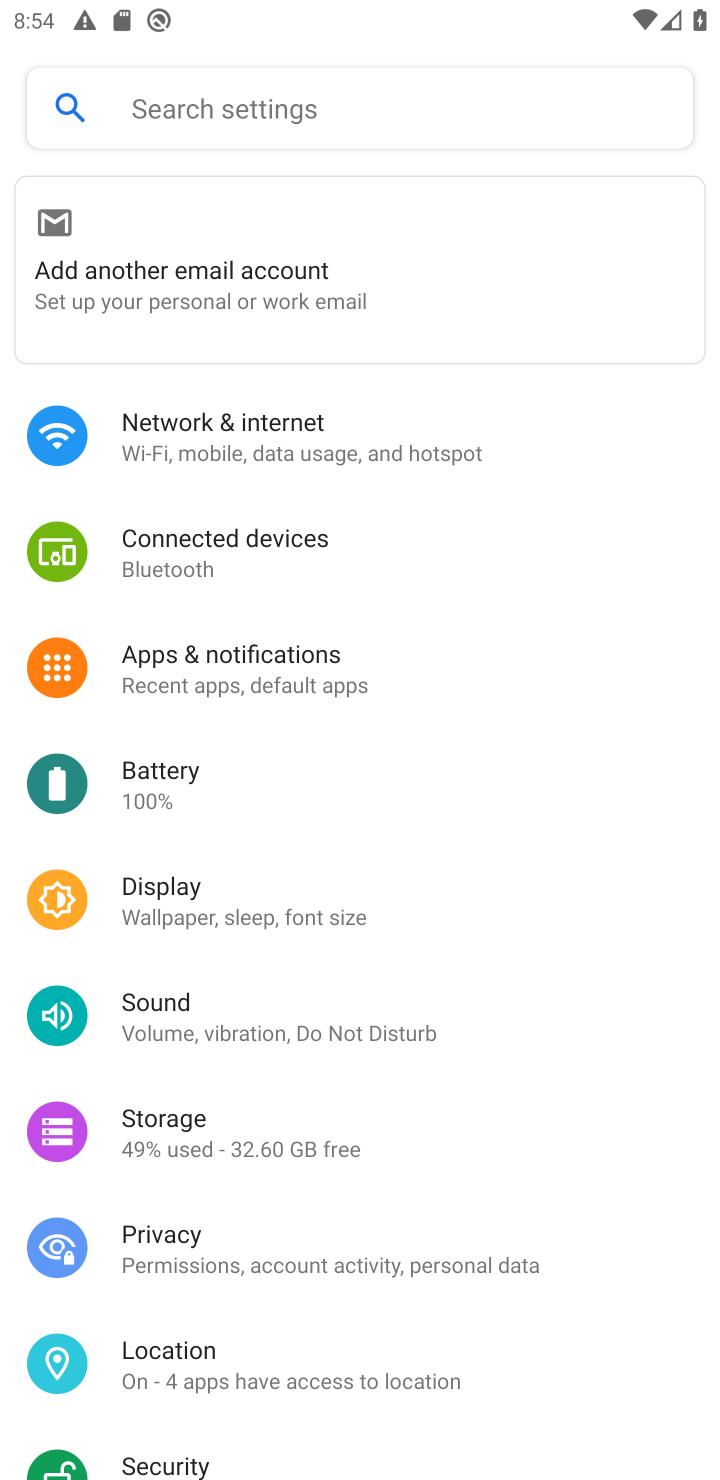
Step 34: drag from (242, 1042) to (194, 397)
Your task to perform on an android device: show emergency info Image 35: 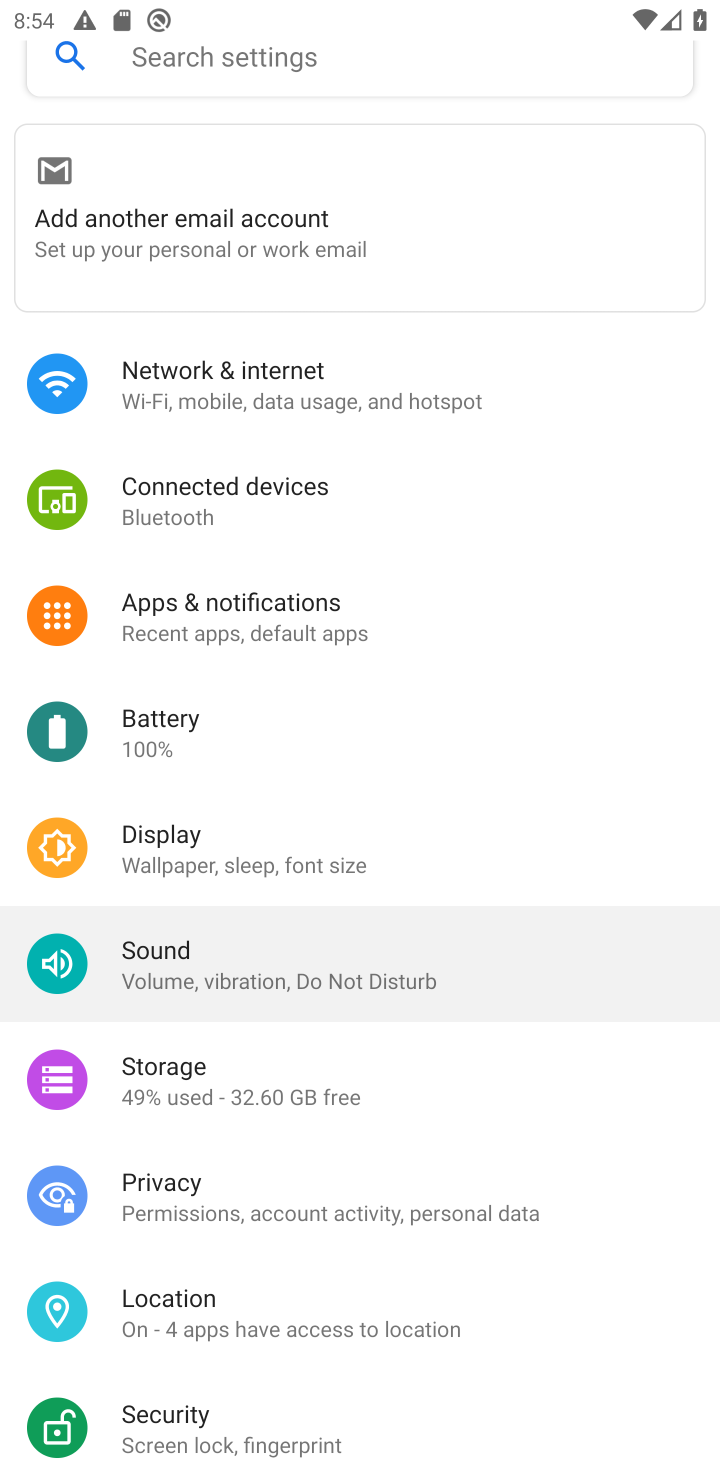
Step 35: drag from (275, 734) to (283, 467)
Your task to perform on an android device: show emergency info Image 36: 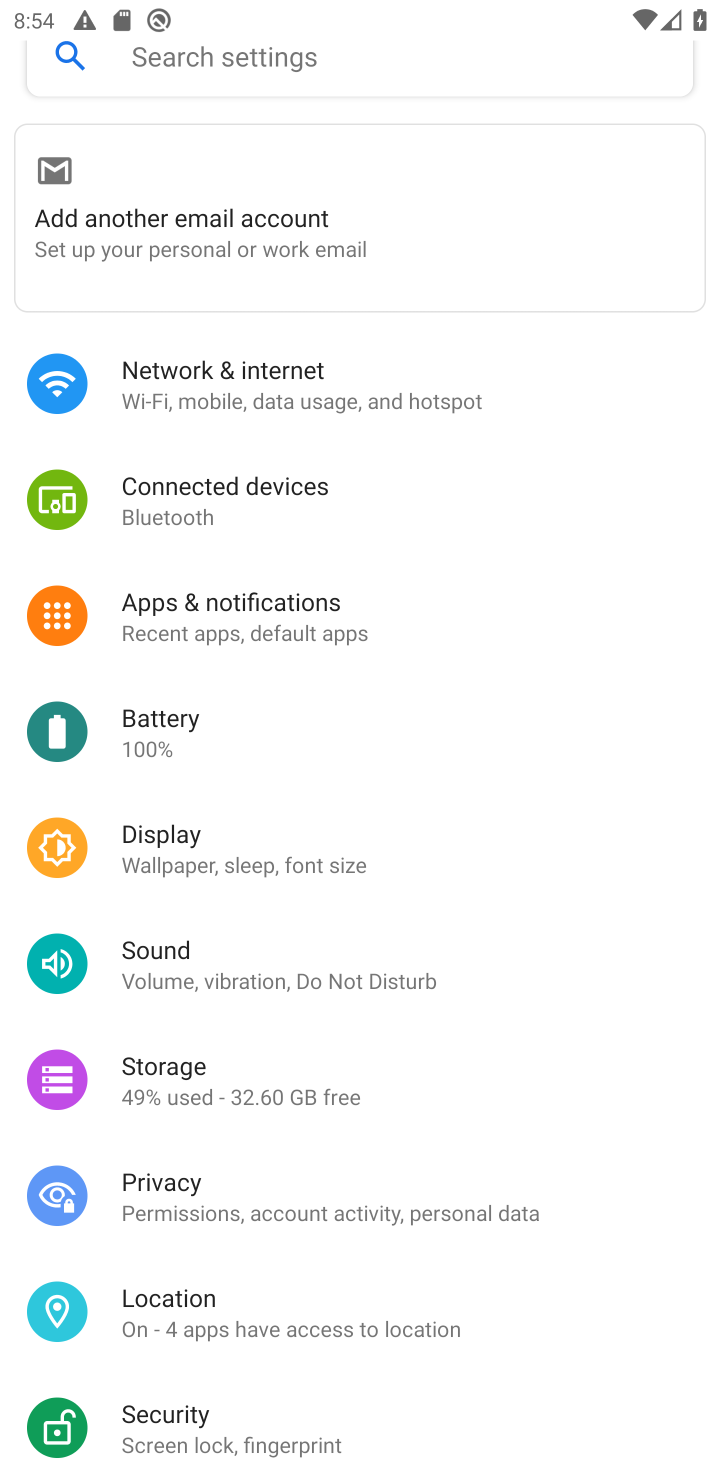
Step 36: drag from (480, 1147) to (455, 527)
Your task to perform on an android device: show emergency info Image 37: 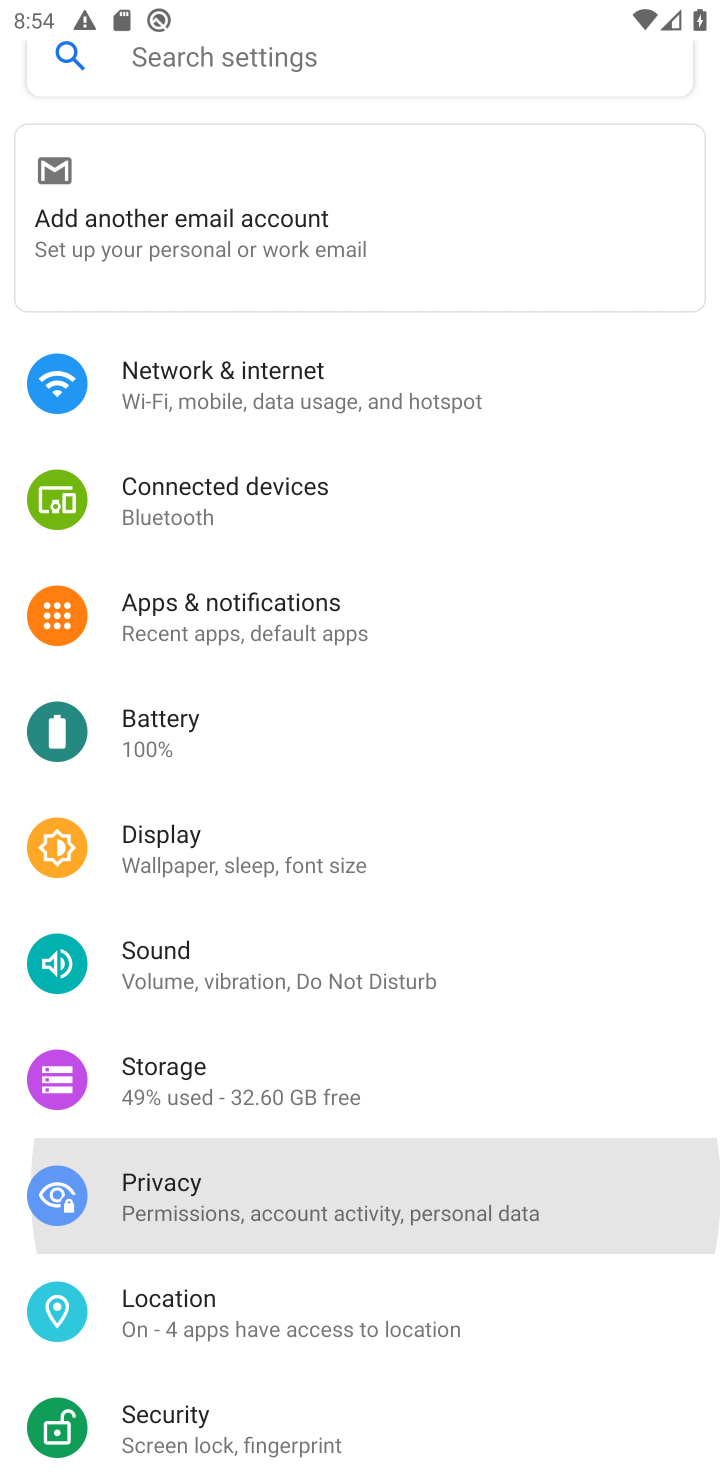
Step 37: drag from (332, 919) to (446, 506)
Your task to perform on an android device: show emergency info Image 38: 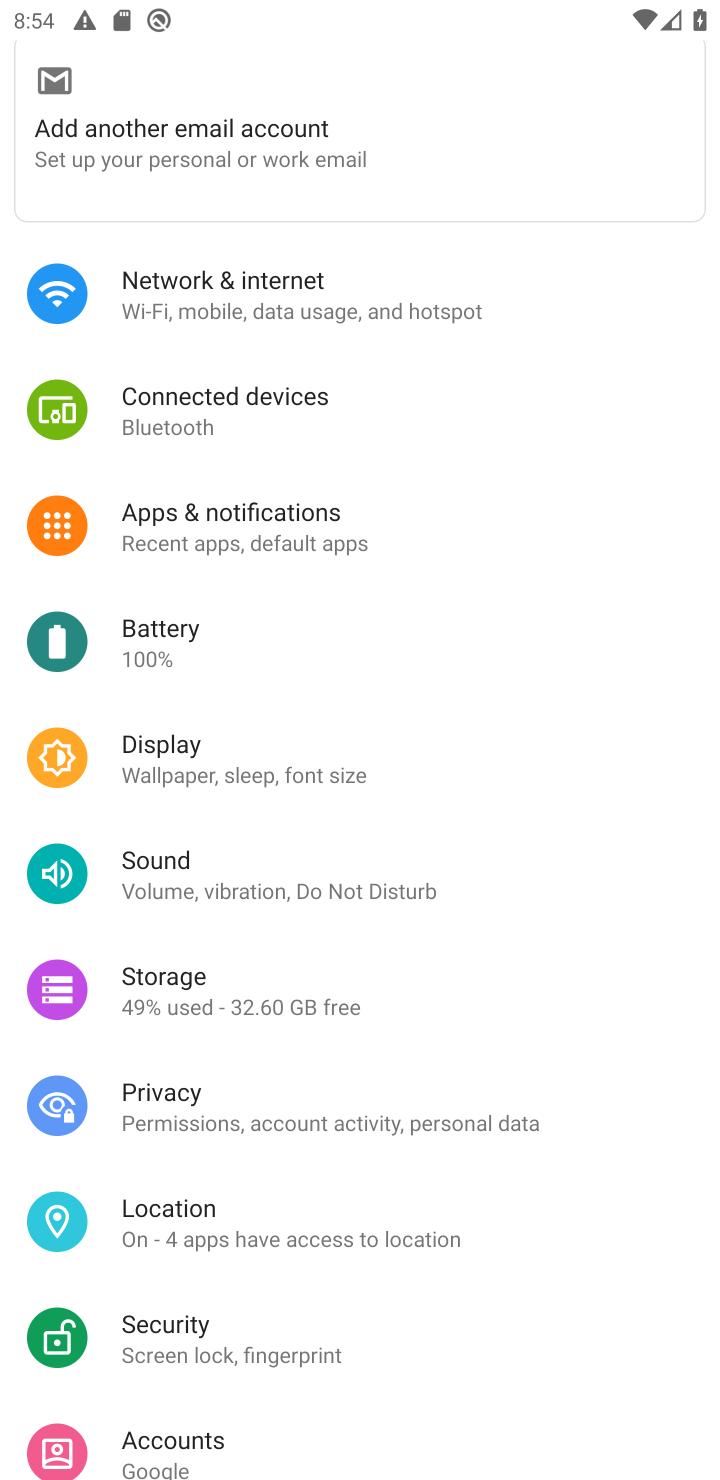
Step 38: drag from (389, 1197) to (462, 524)
Your task to perform on an android device: show emergency info Image 39: 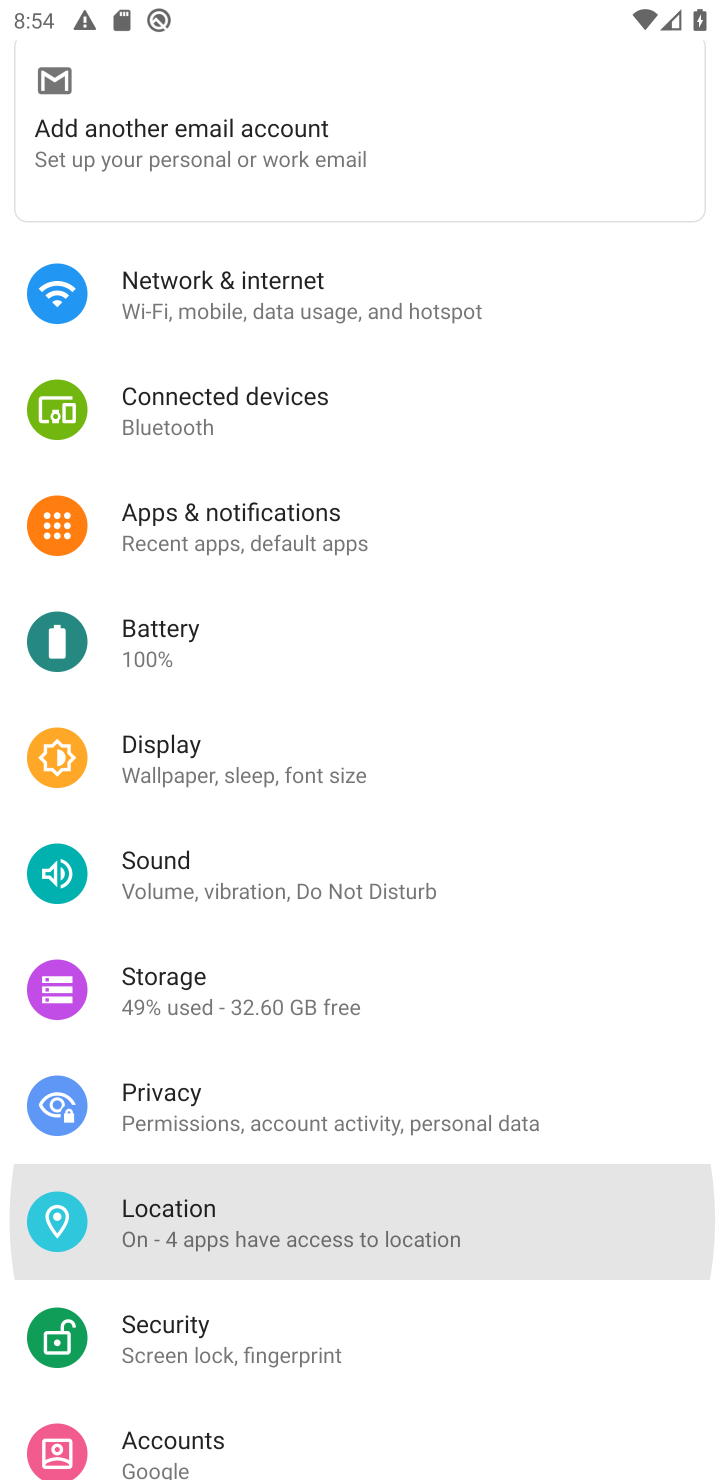
Step 39: click (384, 242)
Your task to perform on an android device: show emergency info Image 40: 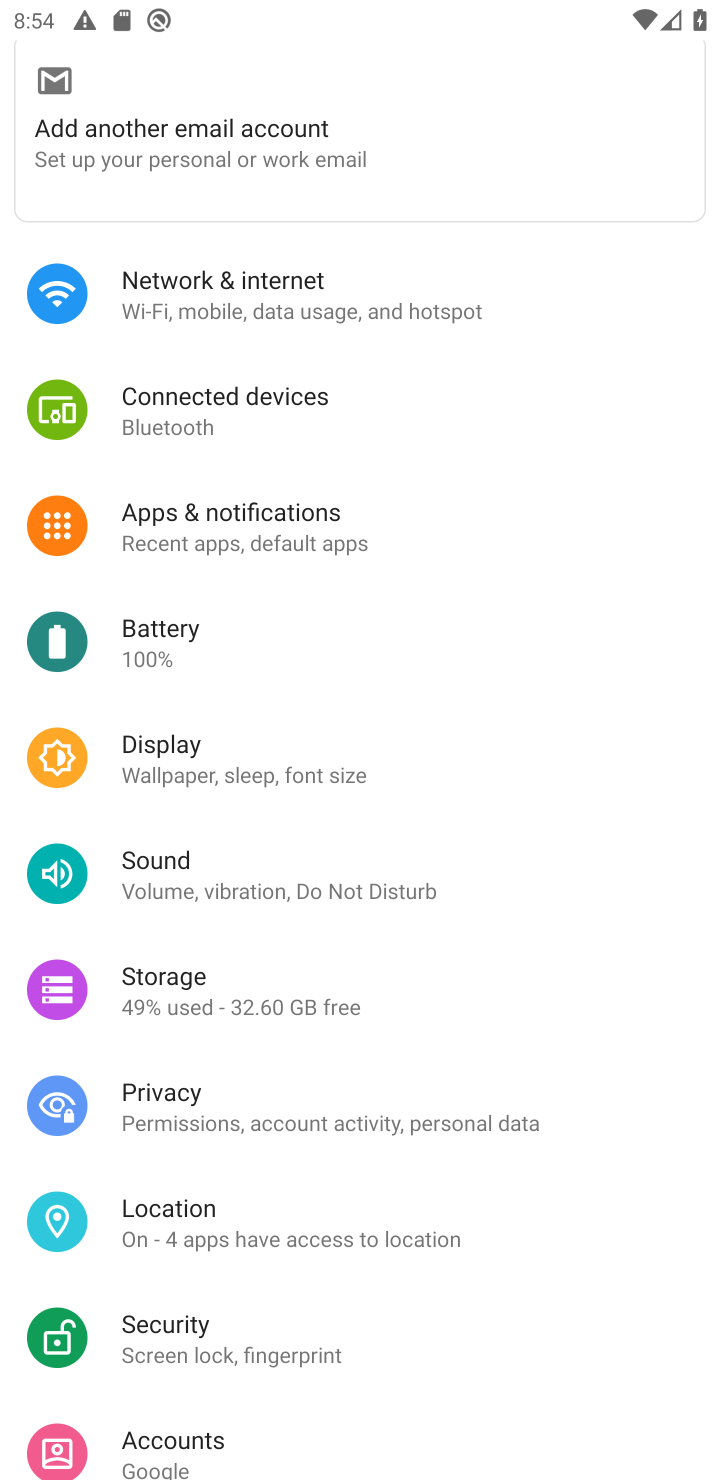
Step 40: drag from (307, 934) to (268, 418)
Your task to perform on an android device: show emergency info Image 41: 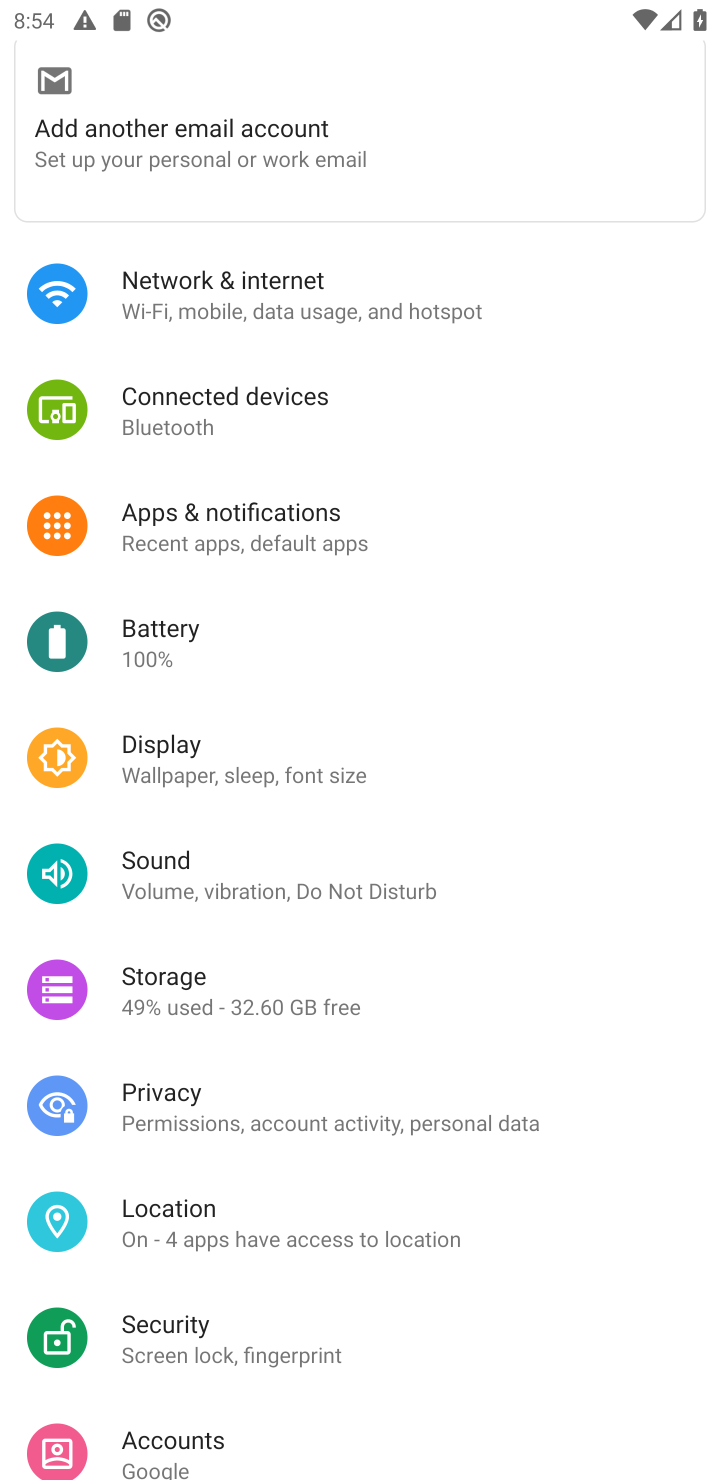
Step 41: drag from (273, 1237) to (213, 552)
Your task to perform on an android device: show emergency info Image 42: 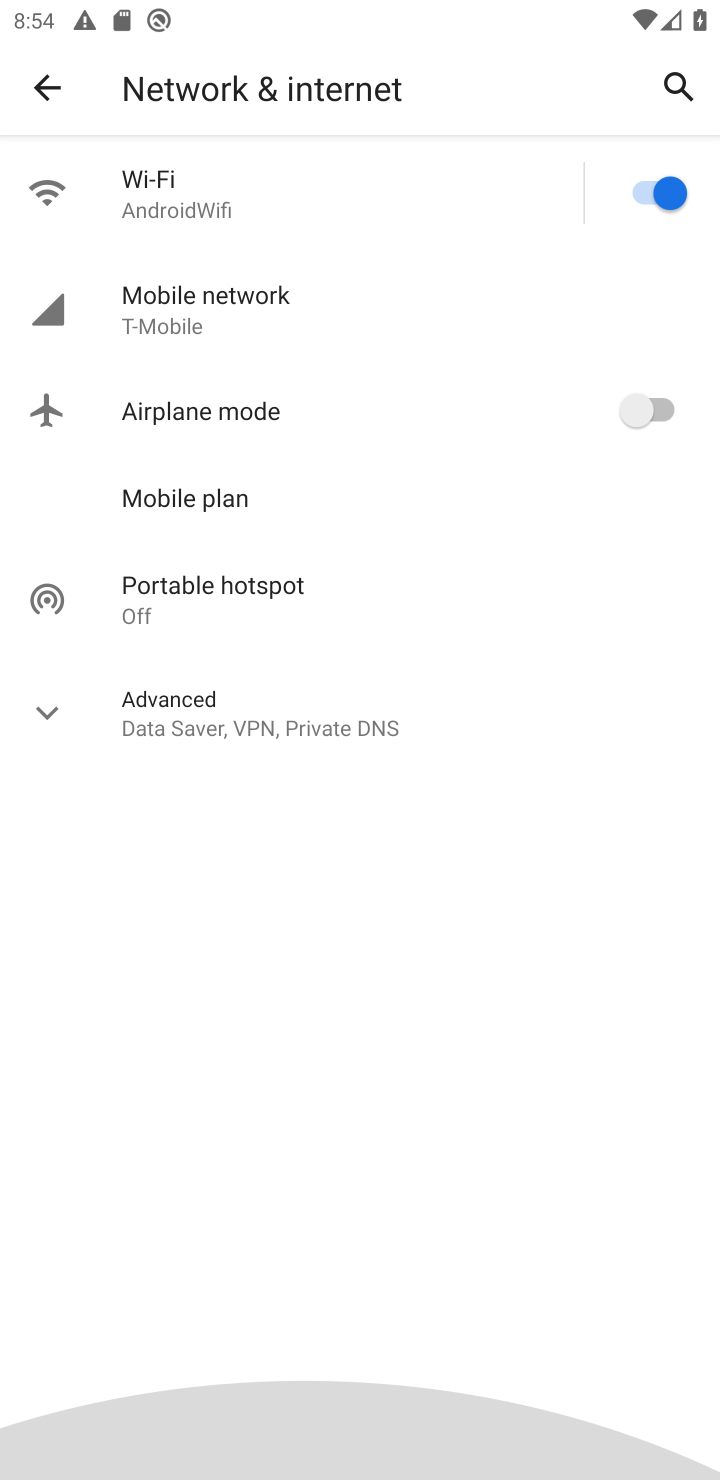
Step 42: drag from (291, 1316) to (394, 339)
Your task to perform on an android device: show emergency info Image 43: 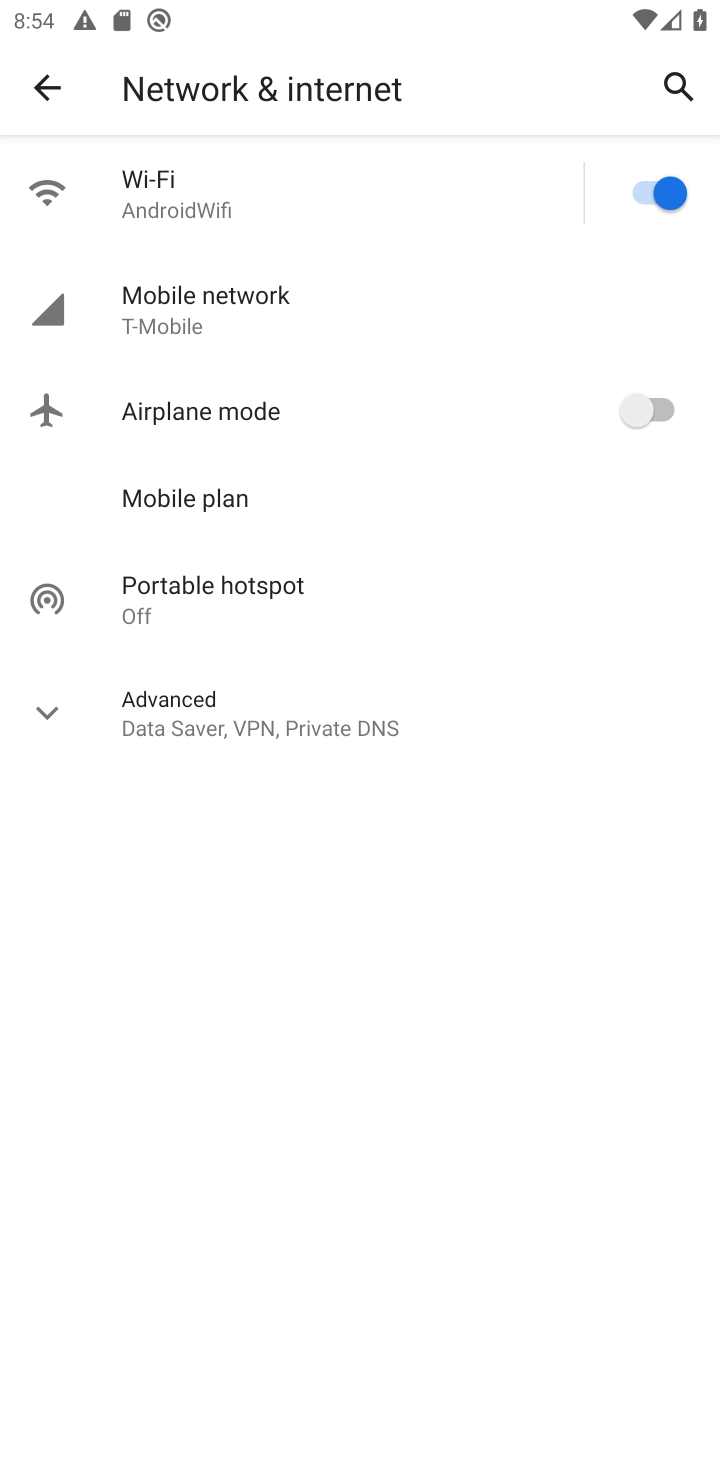
Step 43: click (60, 70)
Your task to perform on an android device: show emergency info Image 44: 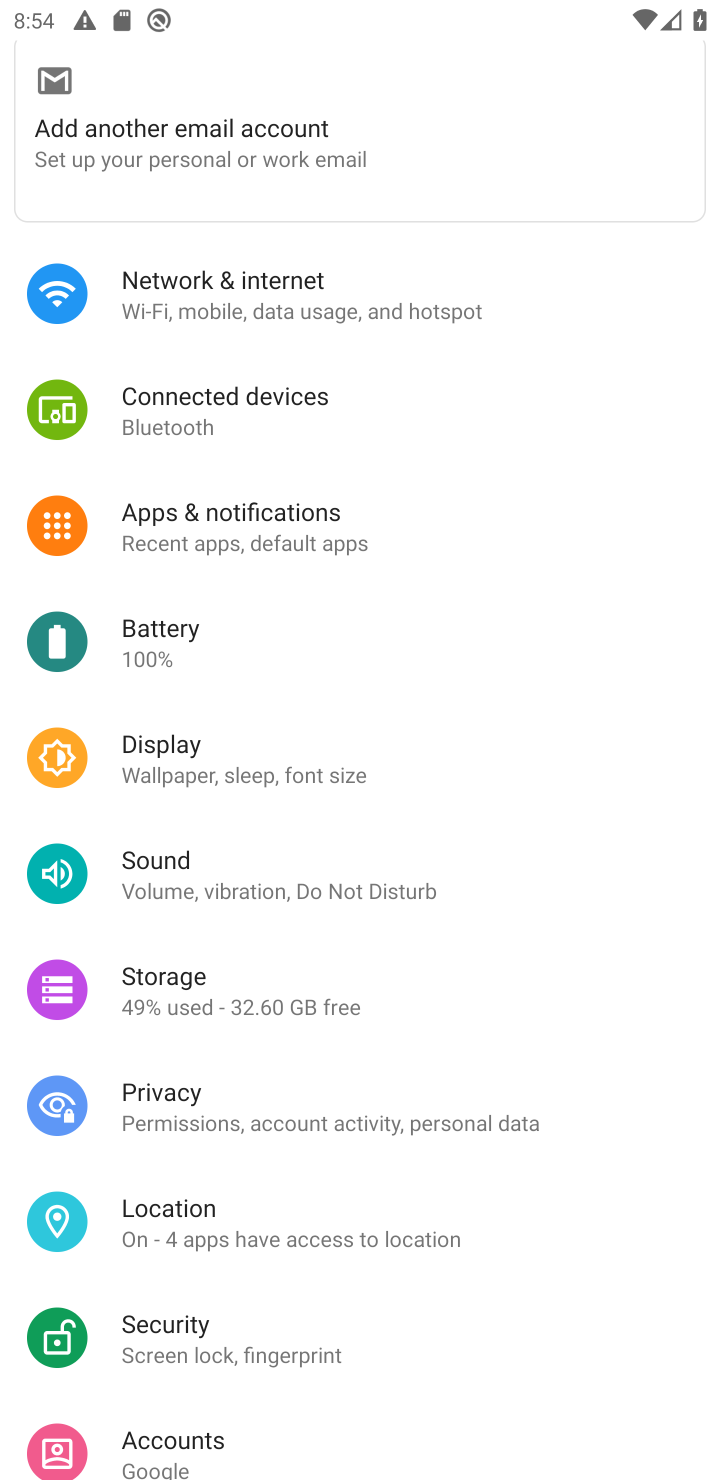
Step 44: click (258, 728)
Your task to perform on an android device: show emergency info Image 45: 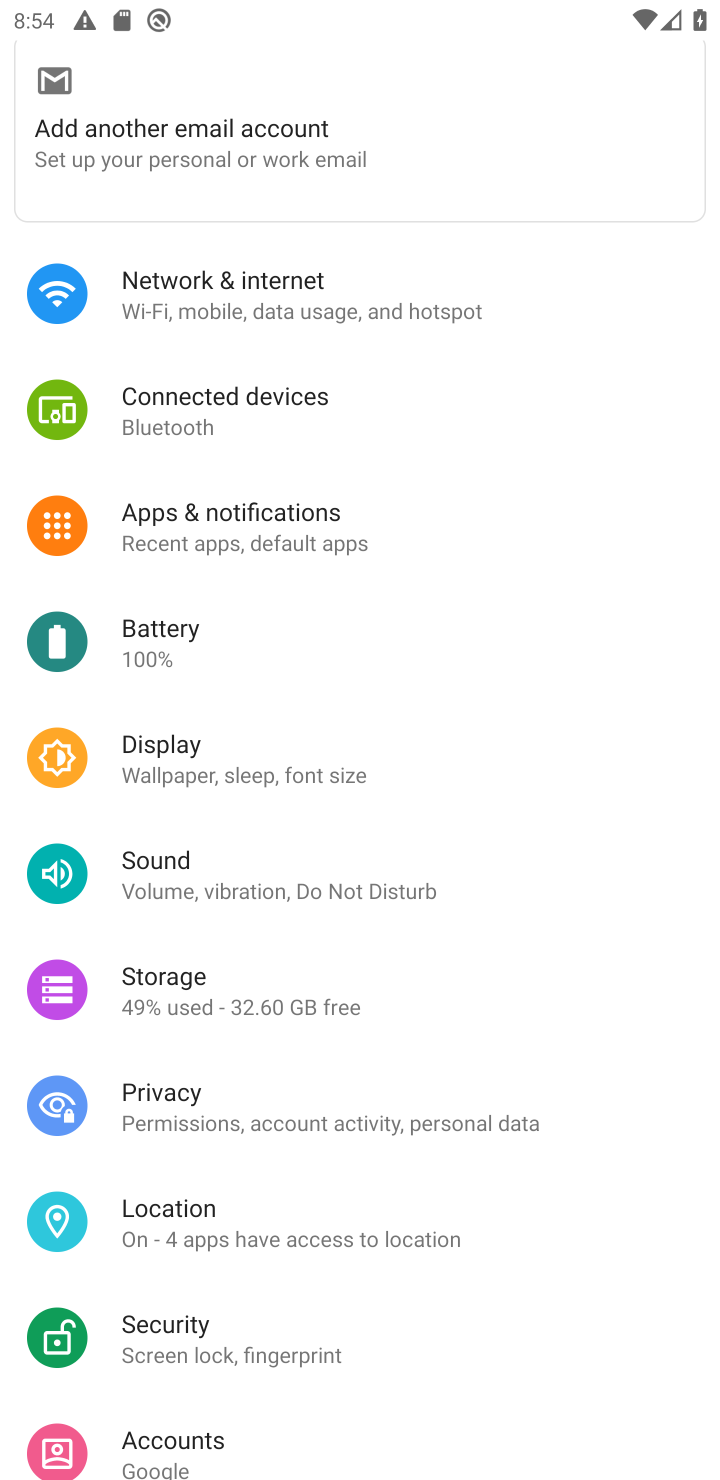
Step 45: click (195, 826)
Your task to perform on an android device: show emergency info Image 46: 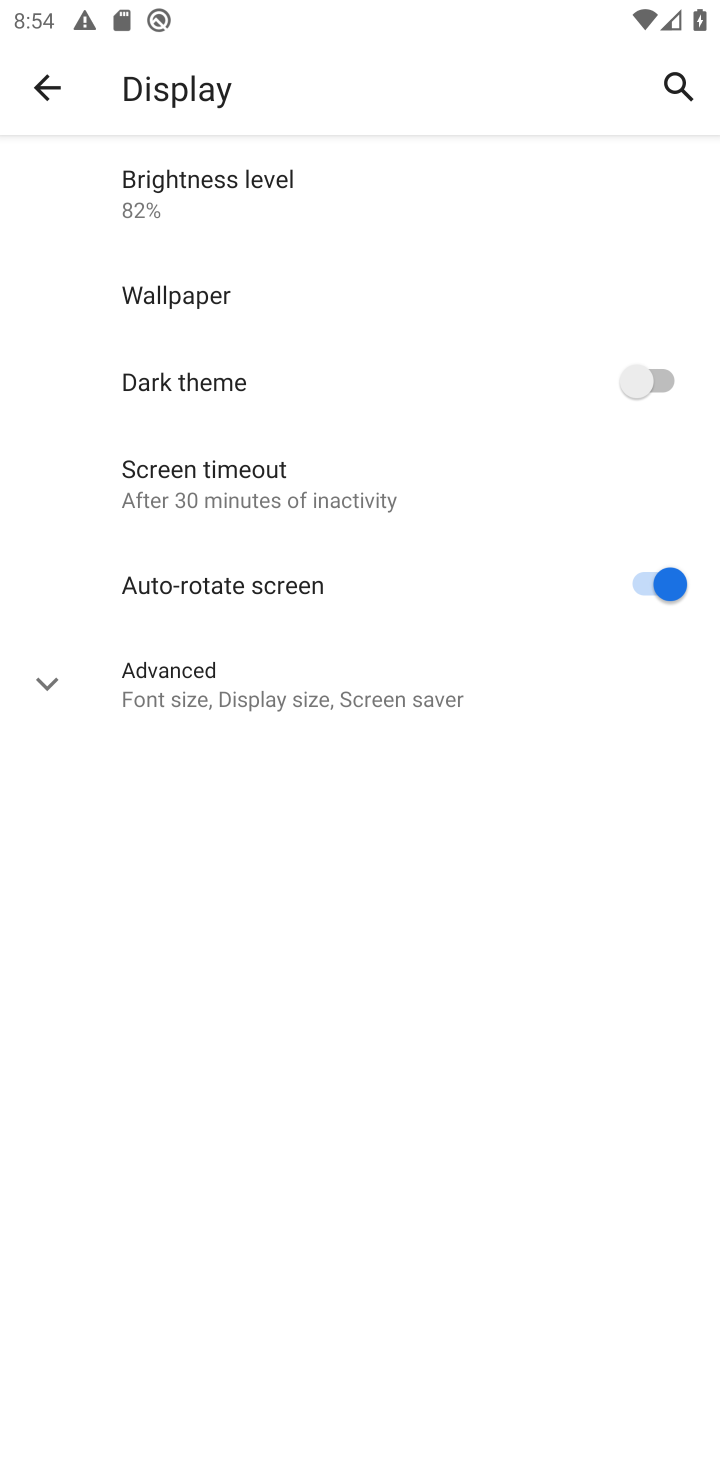
Step 46: click (31, 84)
Your task to perform on an android device: show emergency info Image 47: 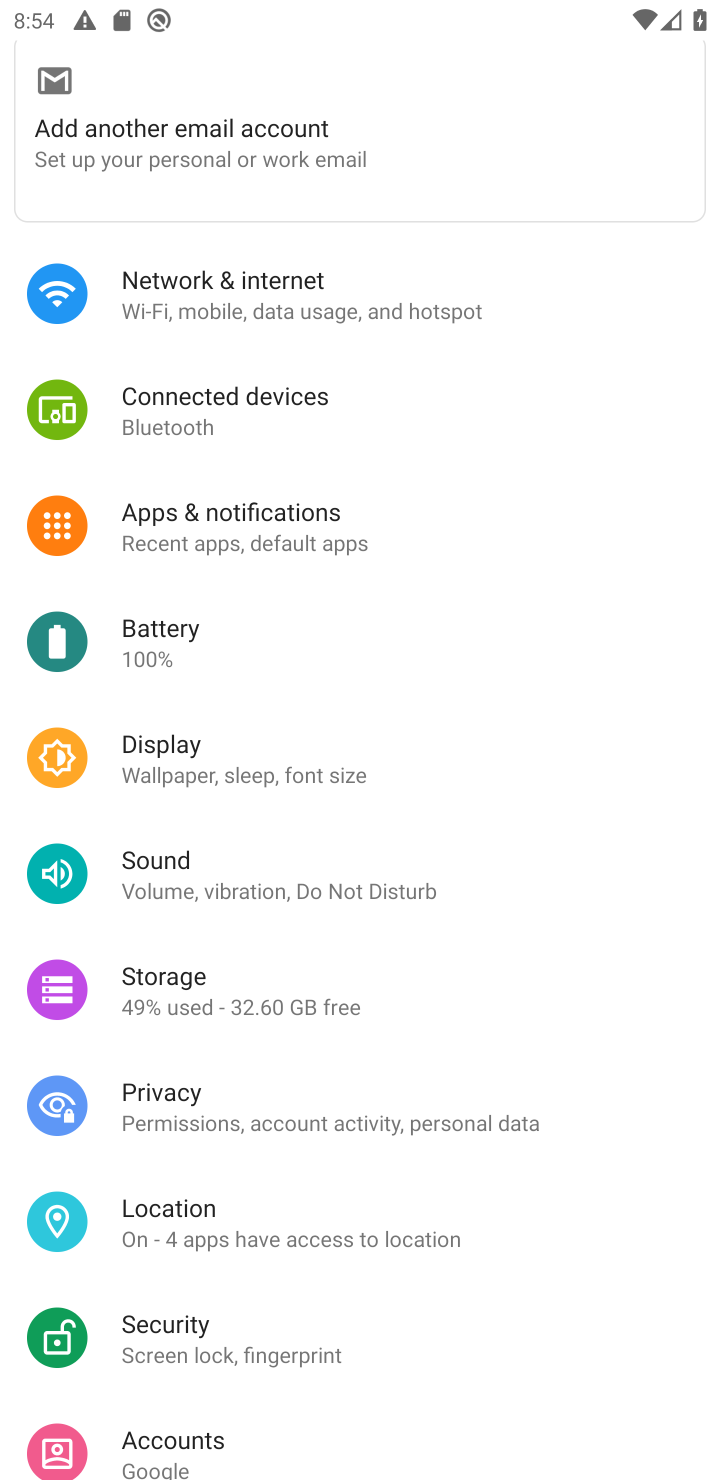
Step 47: drag from (575, 1306) to (716, 319)
Your task to perform on an android device: show emergency info Image 48: 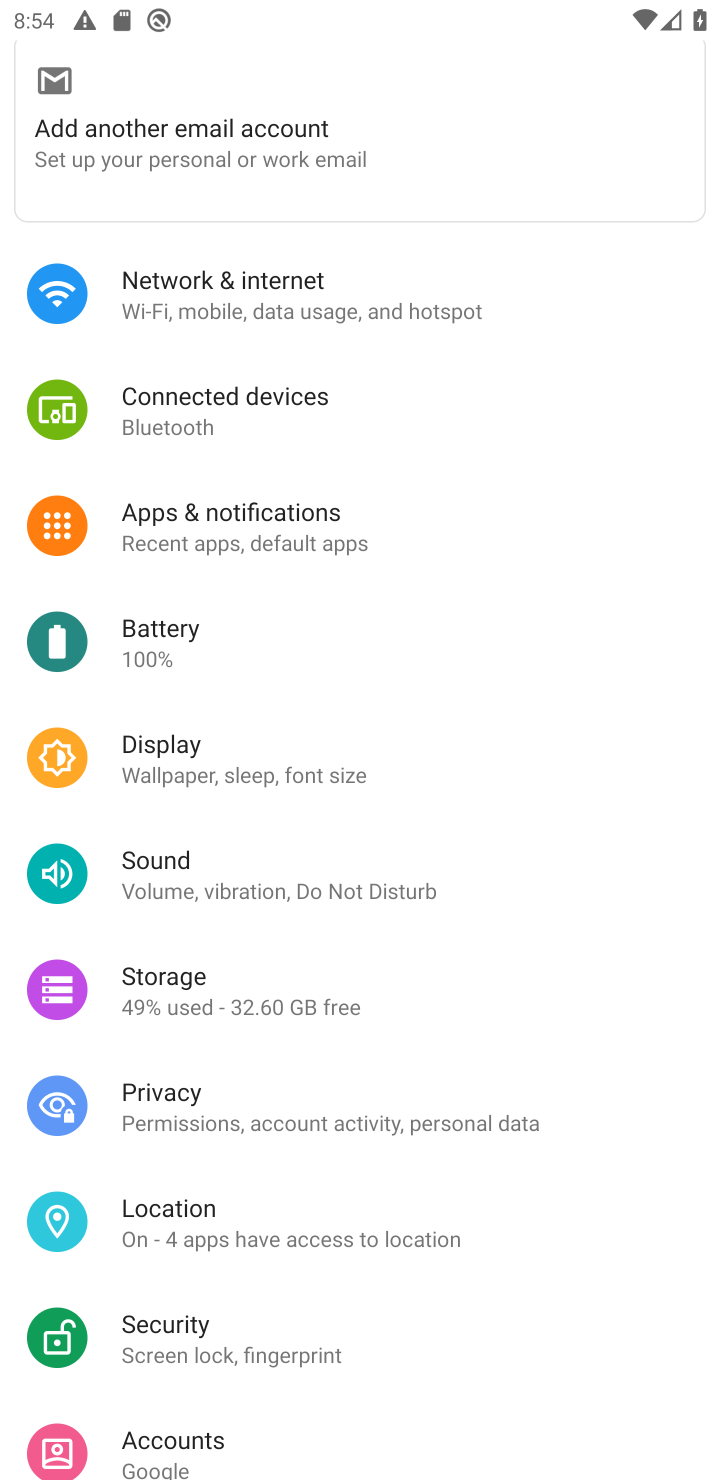
Step 48: drag from (494, 1126) to (594, 262)
Your task to perform on an android device: show emergency info Image 49: 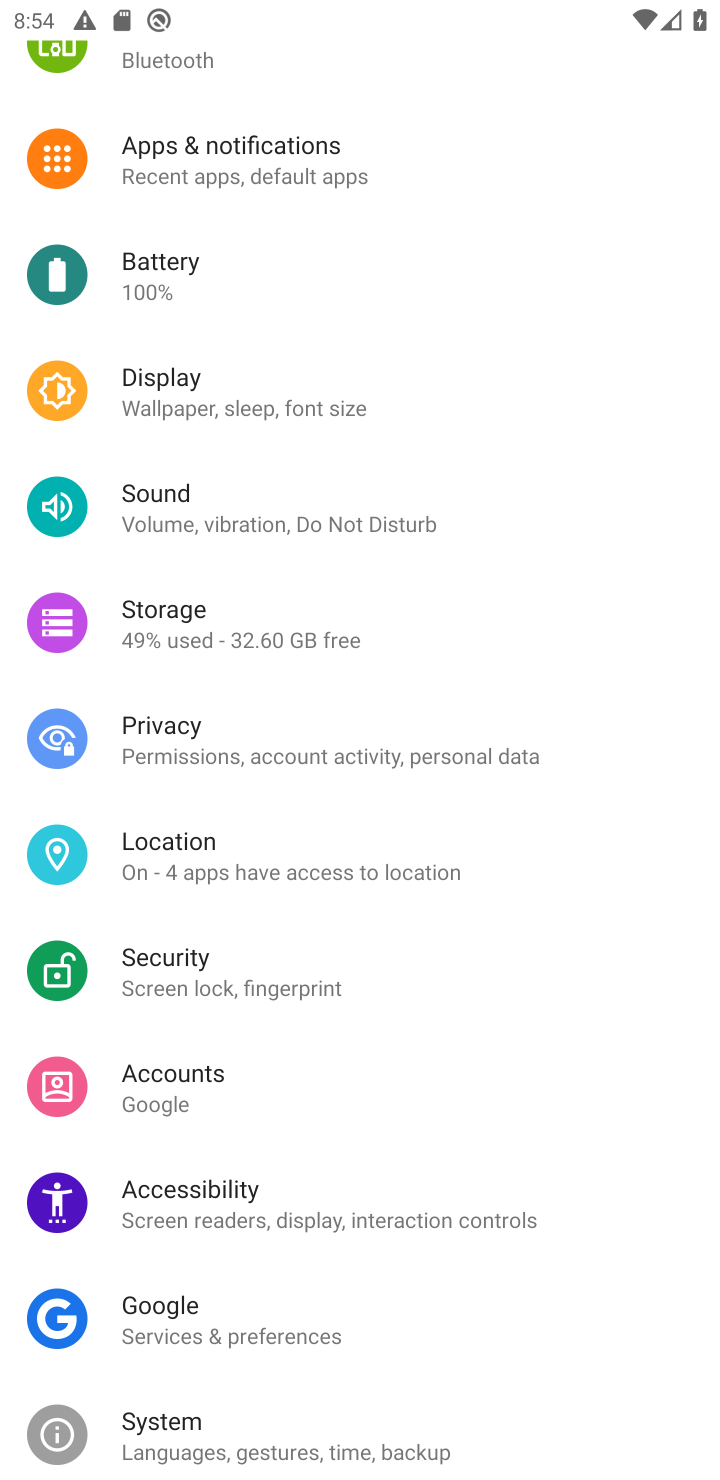
Step 49: drag from (525, 1082) to (589, 286)
Your task to perform on an android device: show emergency info Image 50: 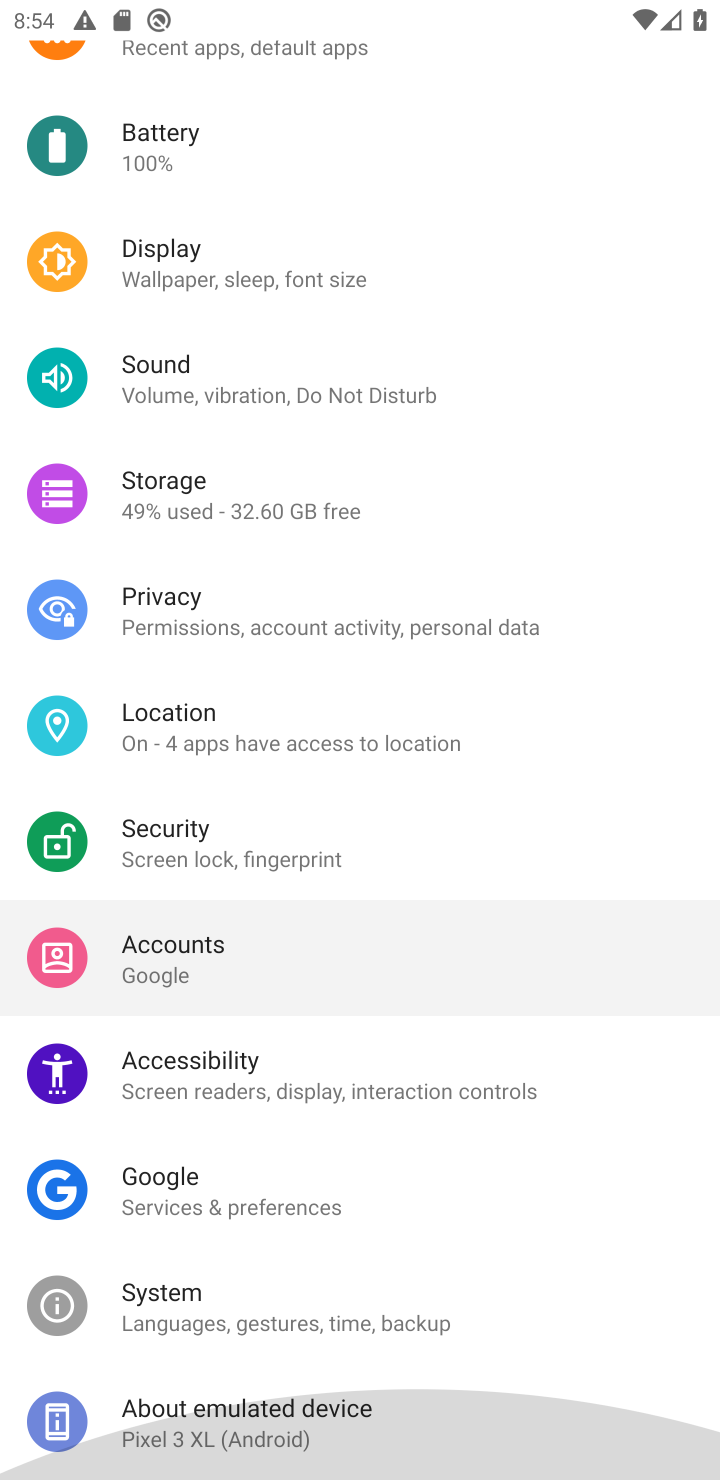
Step 50: drag from (341, 890) to (359, 296)
Your task to perform on an android device: show emergency info Image 51: 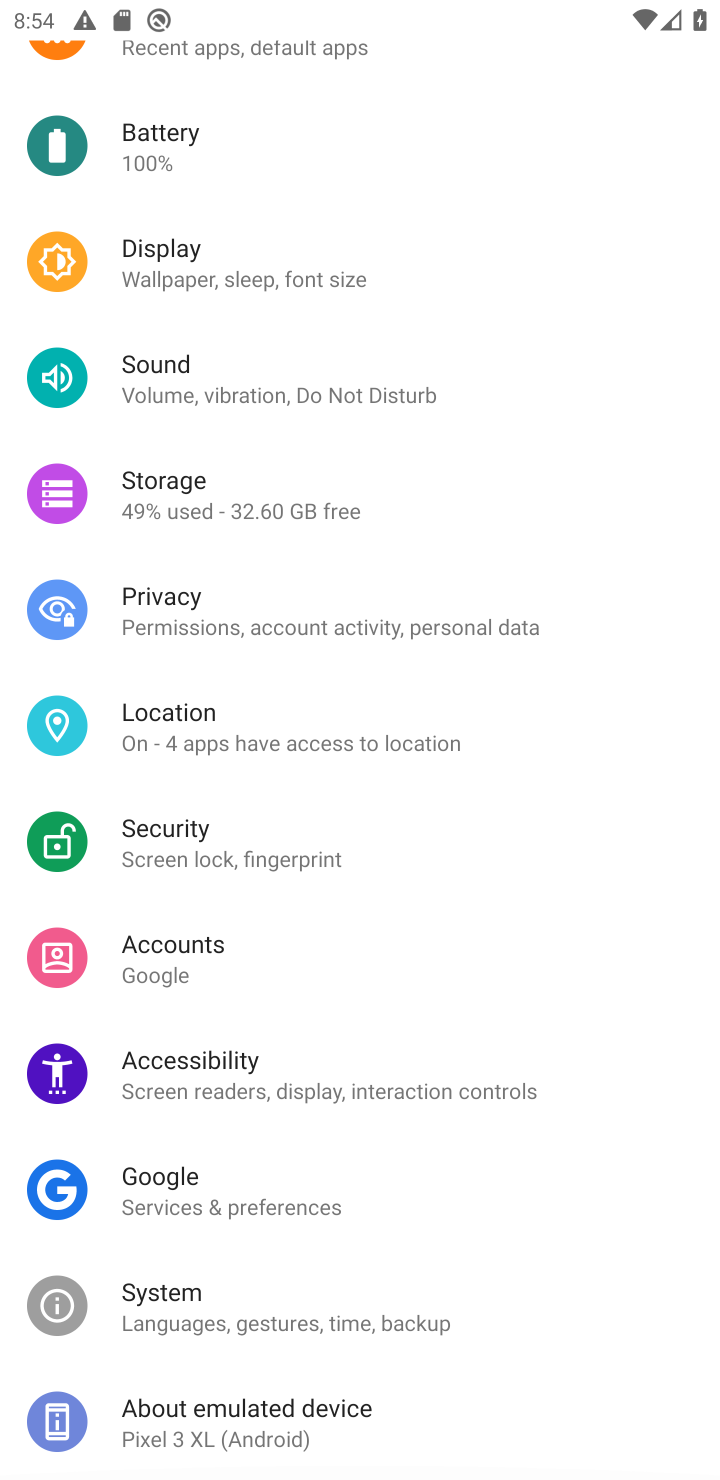
Step 51: click (180, 1430)
Your task to perform on an android device: show emergency info Image 52: 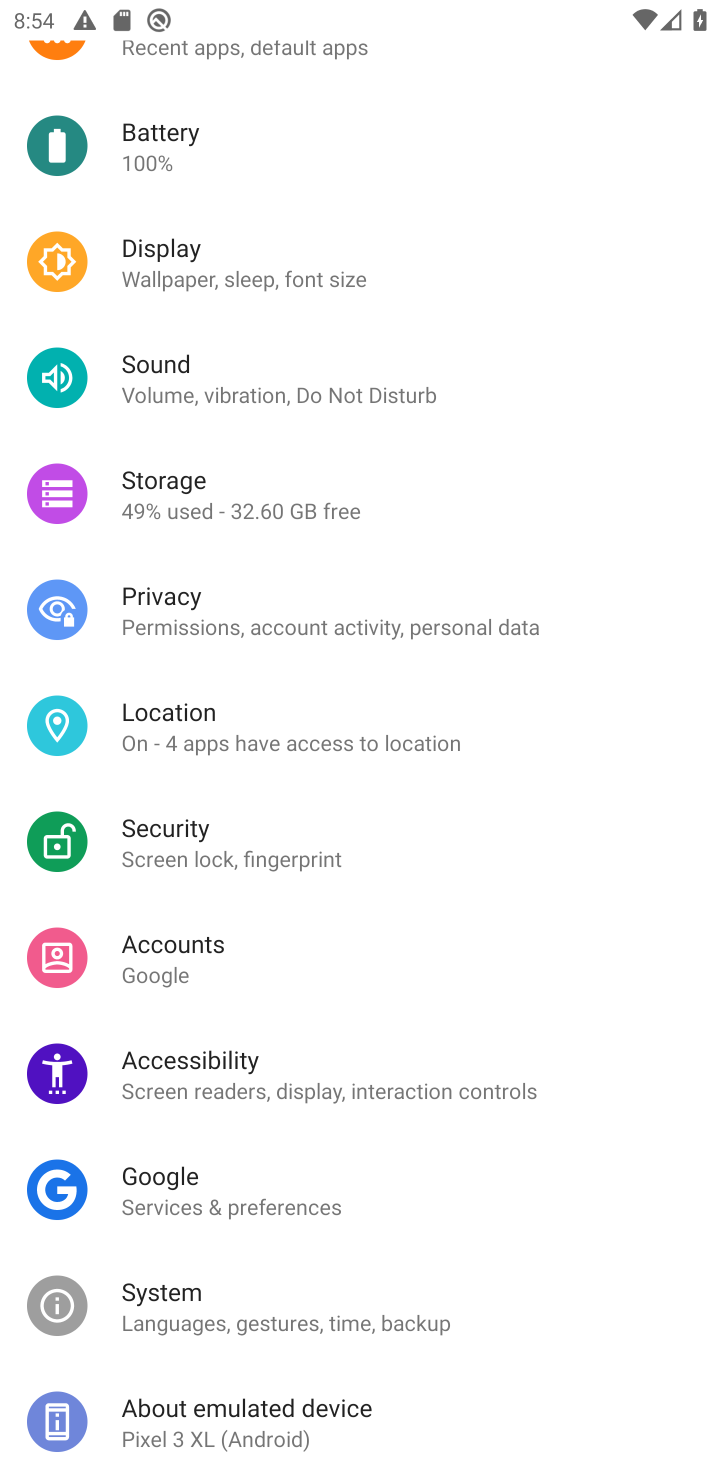
Step 52: click (179, 1432)
Your task to perform on an android device: show emergency info Image 53: 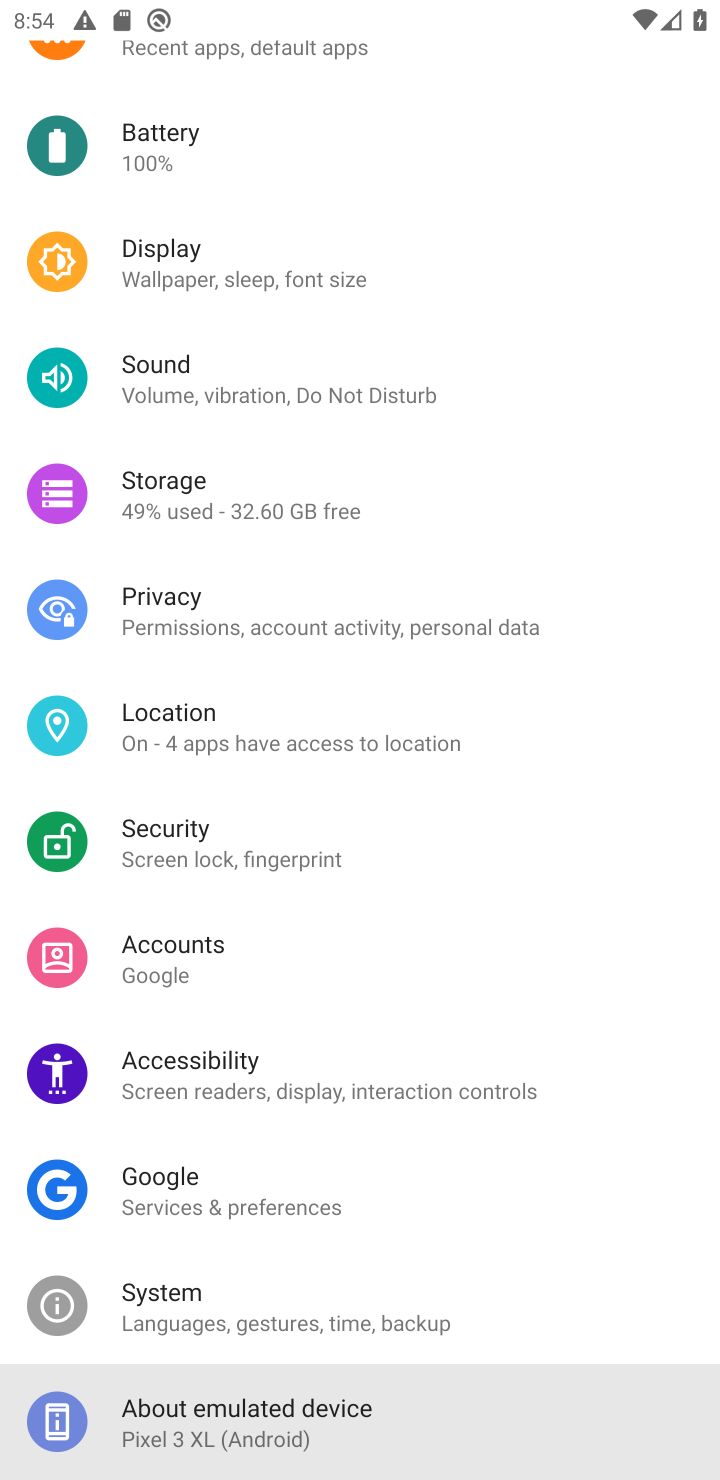
Step 53: click (175, 1428)
Your task to perform on an android device: show emergency info Image 54: 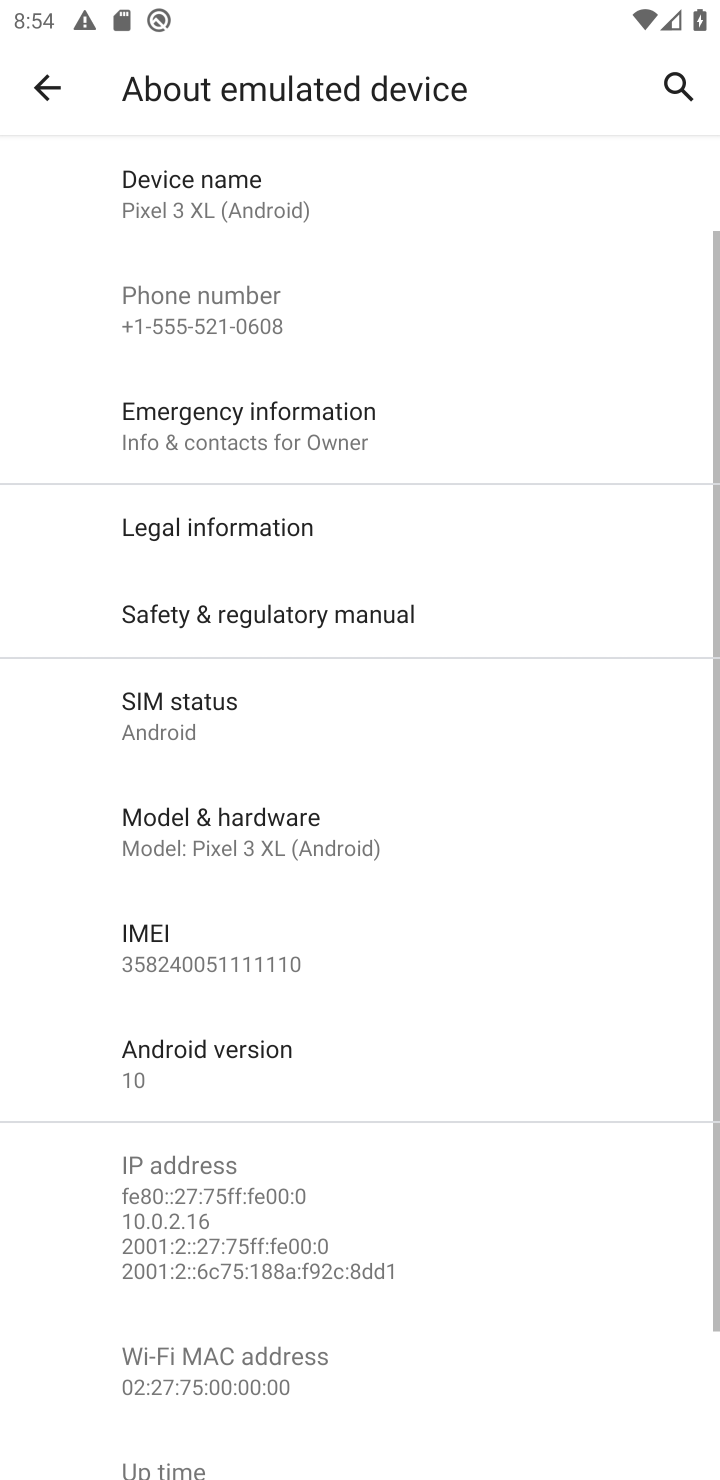
Step 54: task complete